Your task to perform on an android device: Search for "razer blackwidow" on walmart.com, select the first entry, and add it to the cart. Image 0: 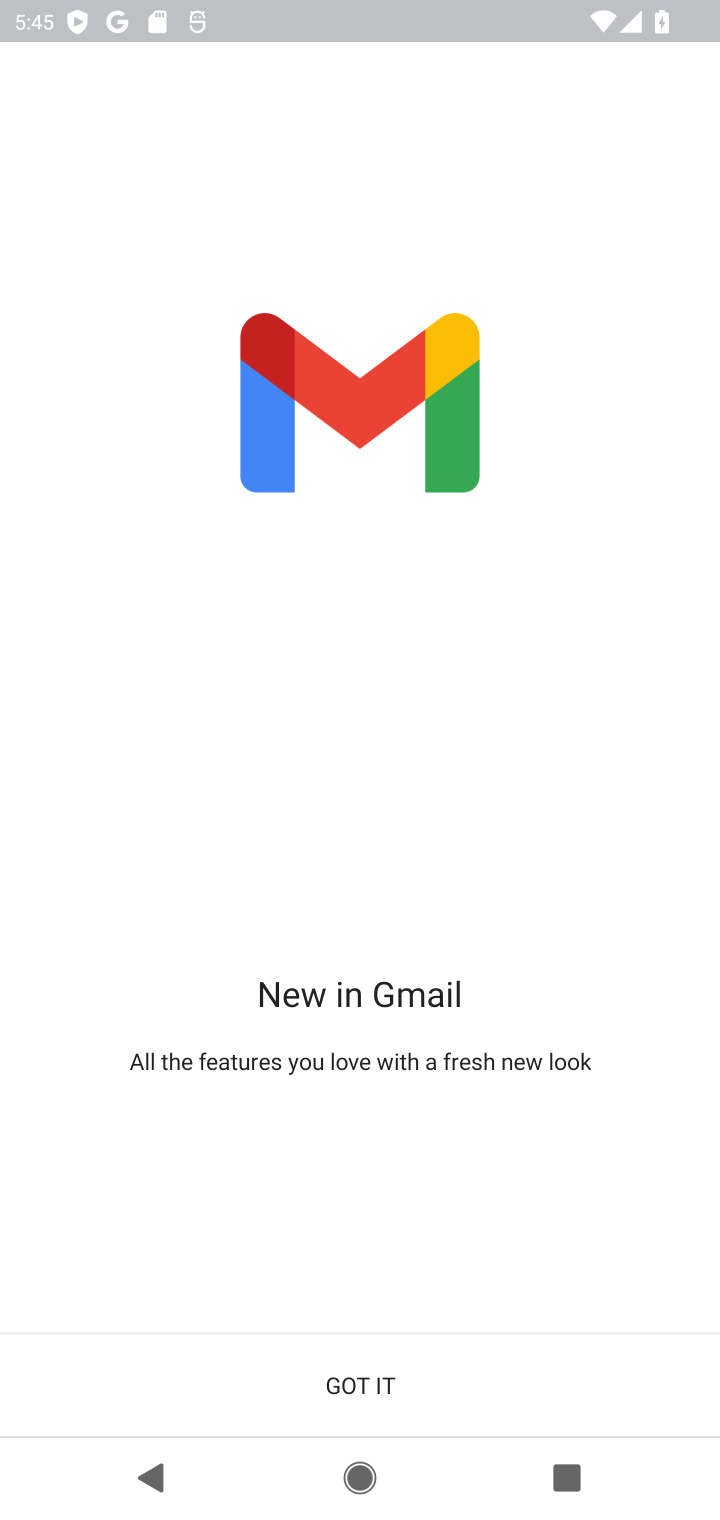
Step 0: click (160, 1387)
Your task to perform on an android device: Search for "razer blackwidow" on walmart.com, select the first entry, and add it to the cart. Image 1: 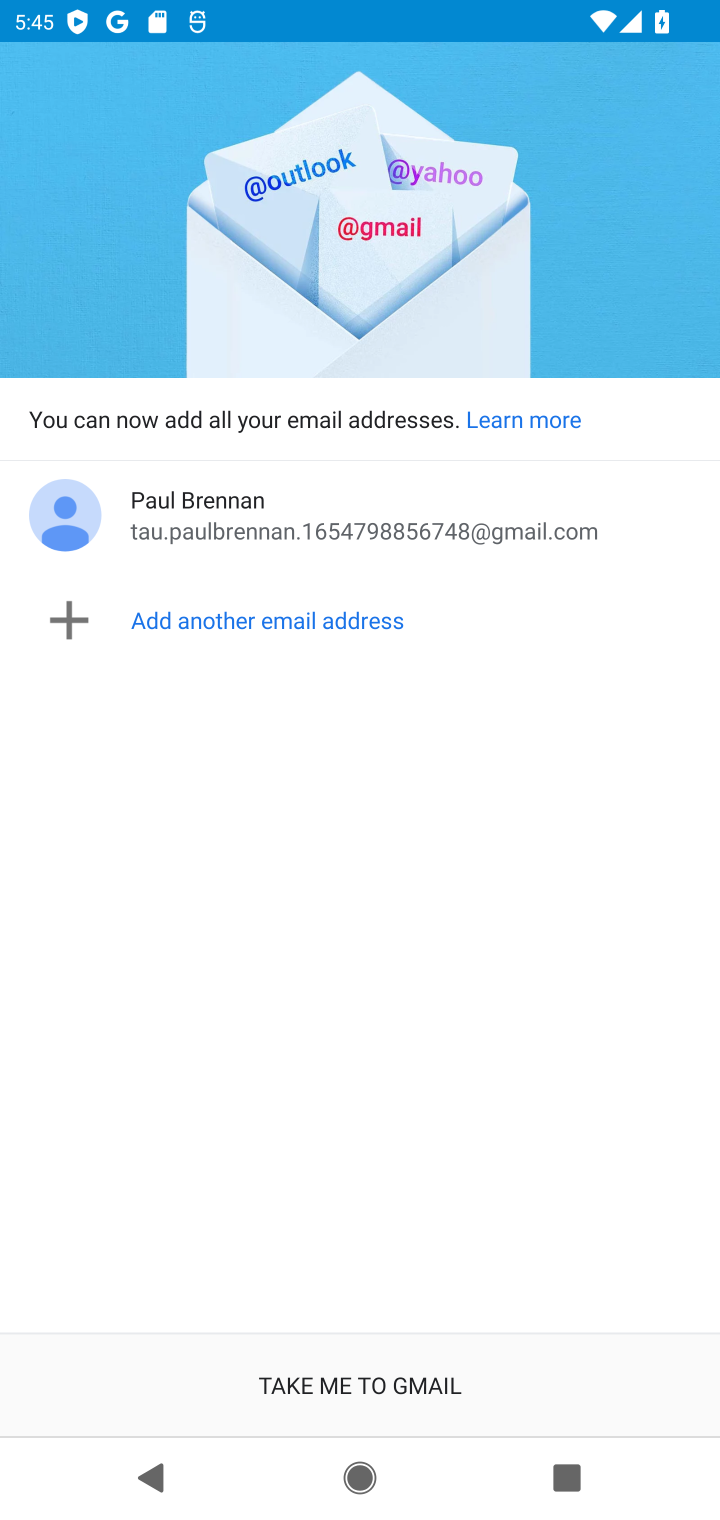
Step 1: press home button
Your task to perform on an android device: Search for "razer blackwidow" on walmart.com, select the first entry, and add it to the cart. Image 2: 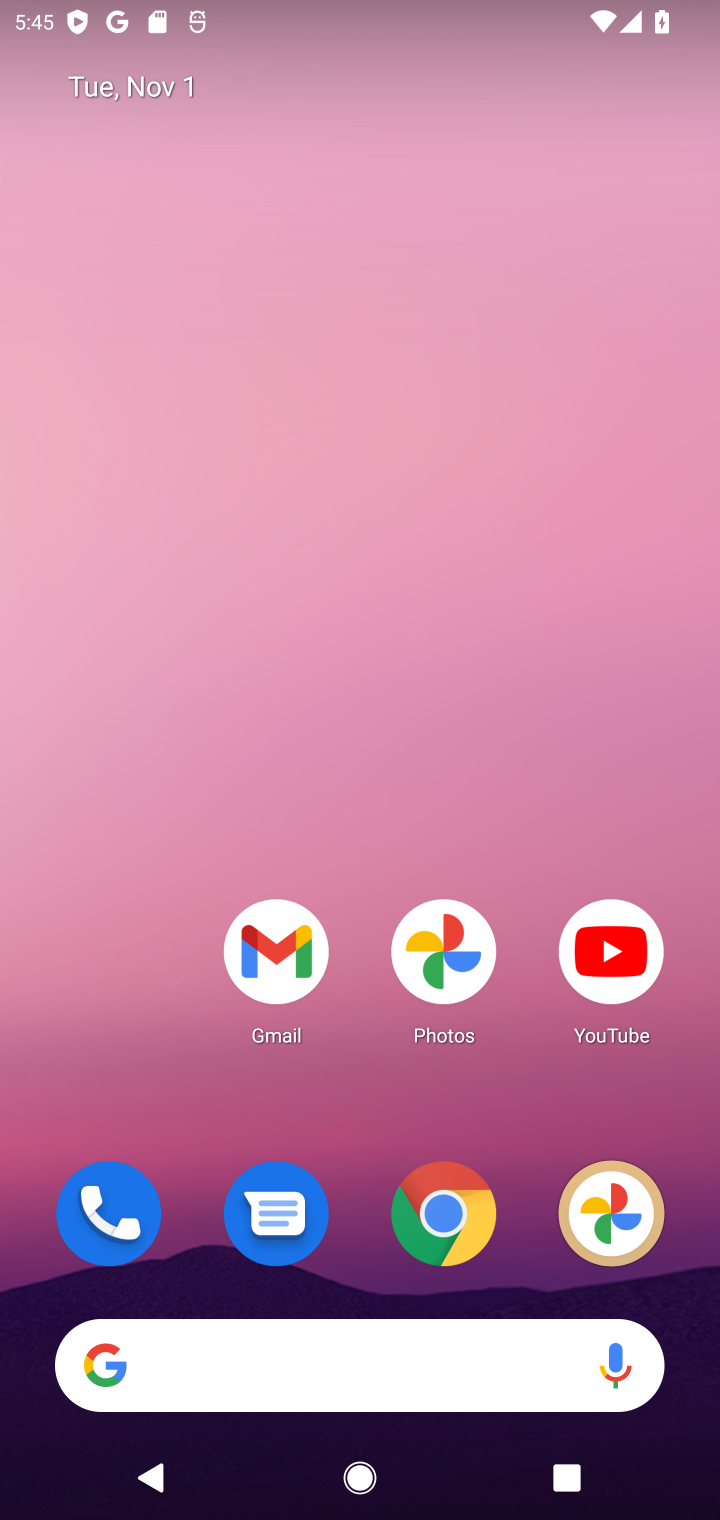
Step 2: click (445, 1231)
Your task to perform on an android device: Search for "razer blackwidow" on walmart.com, select the first entry, and add it to the cart. Image 3: 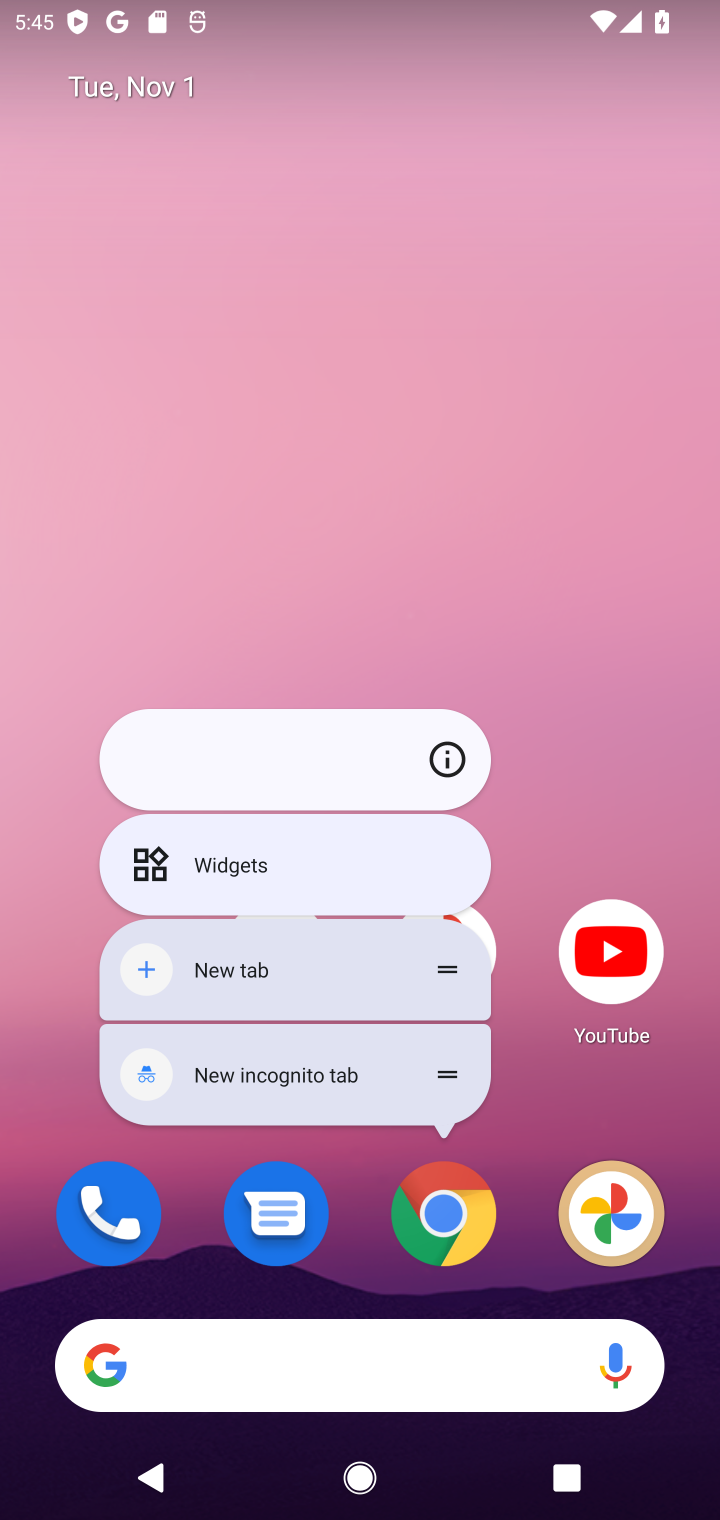
Step 3: click (450, 1213)
Your task to perform on an android device: Search for "razer blackwidow" on walmart.com, select the first entry, and add it to the cart. Image 4: 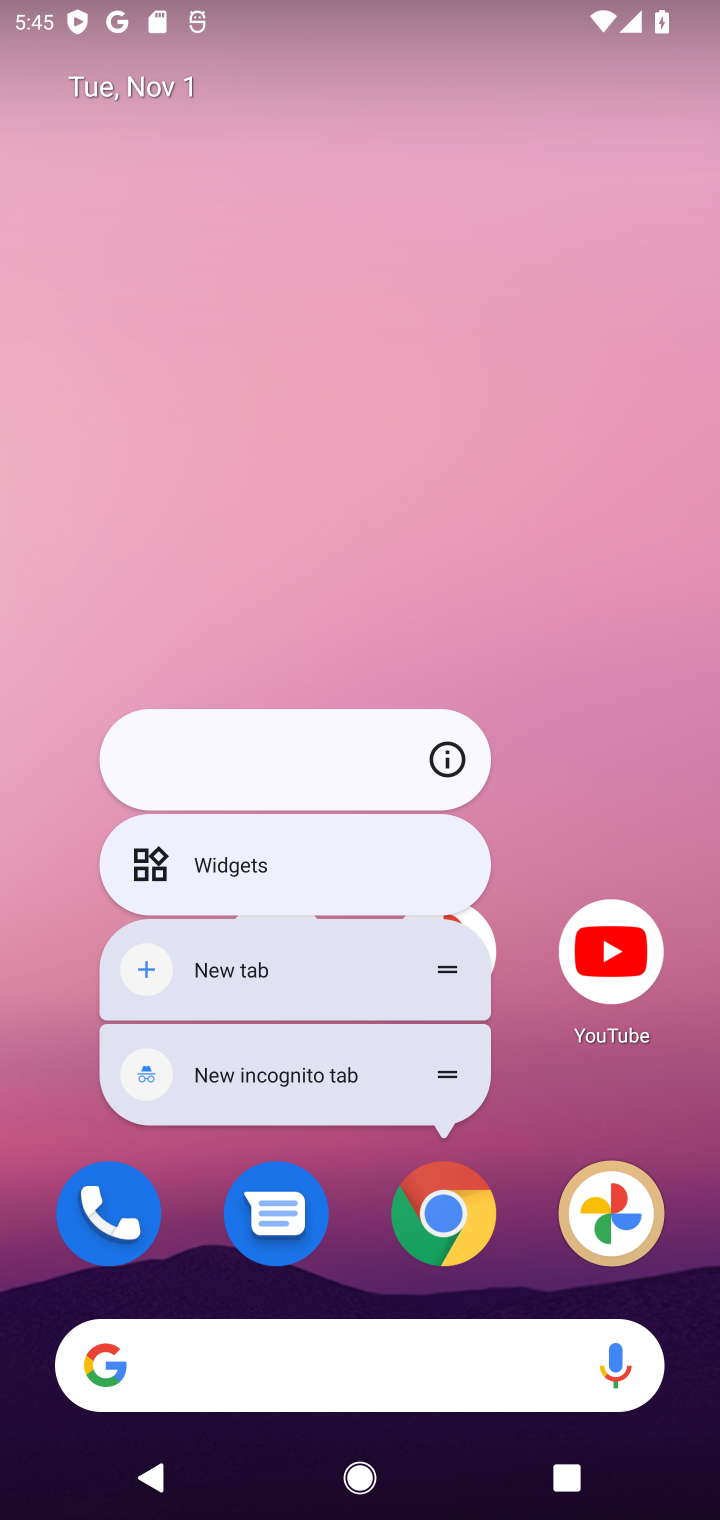
Step 4: click (450, 1240)
Your task to perform on an android device: Search for "razer blackwidow" on walmart.com, select the first entry, and add it to the cart. Image 5: 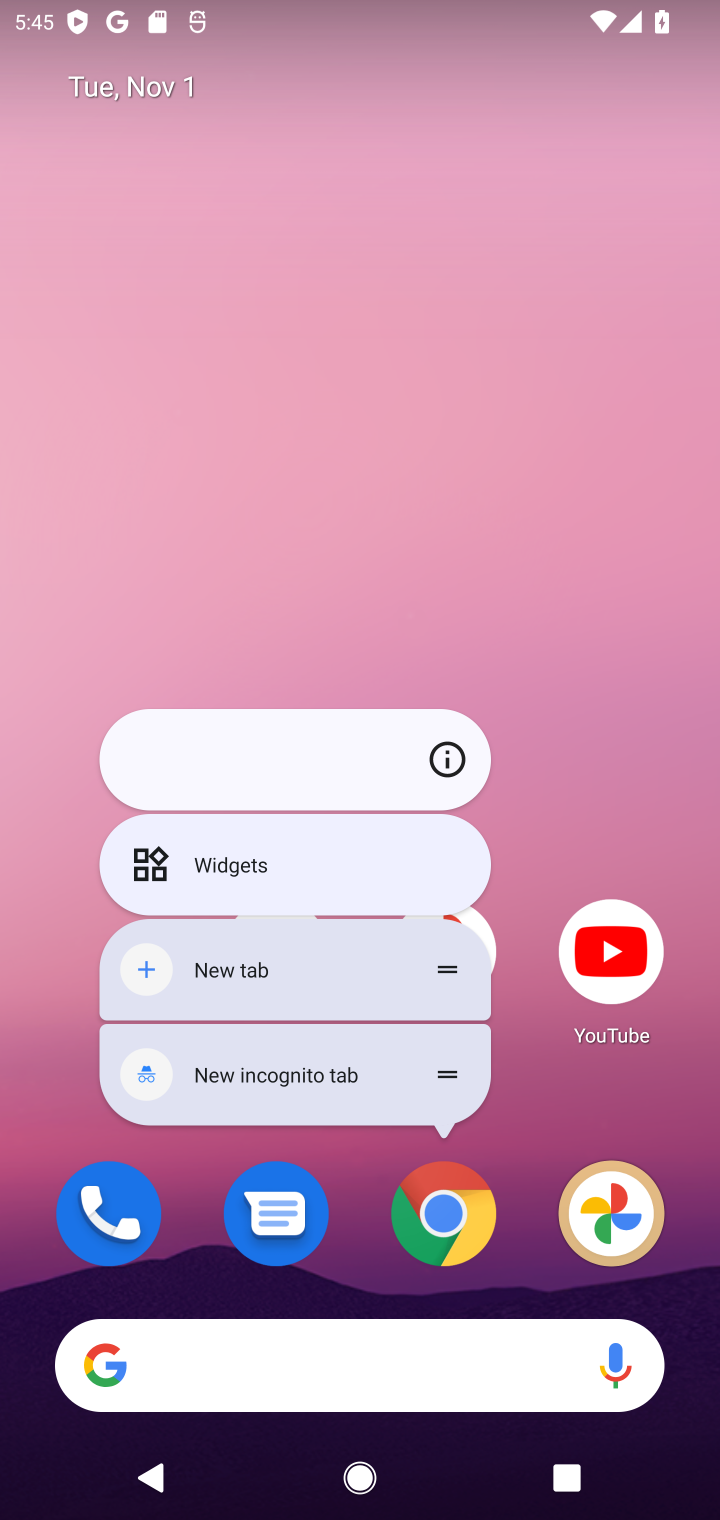
Step 5: click (450, 1226)
Your task to perform on an android device: Search for "razer blackwidow" on walmart.com, select the first entry, and add it to the cart. Image 6: 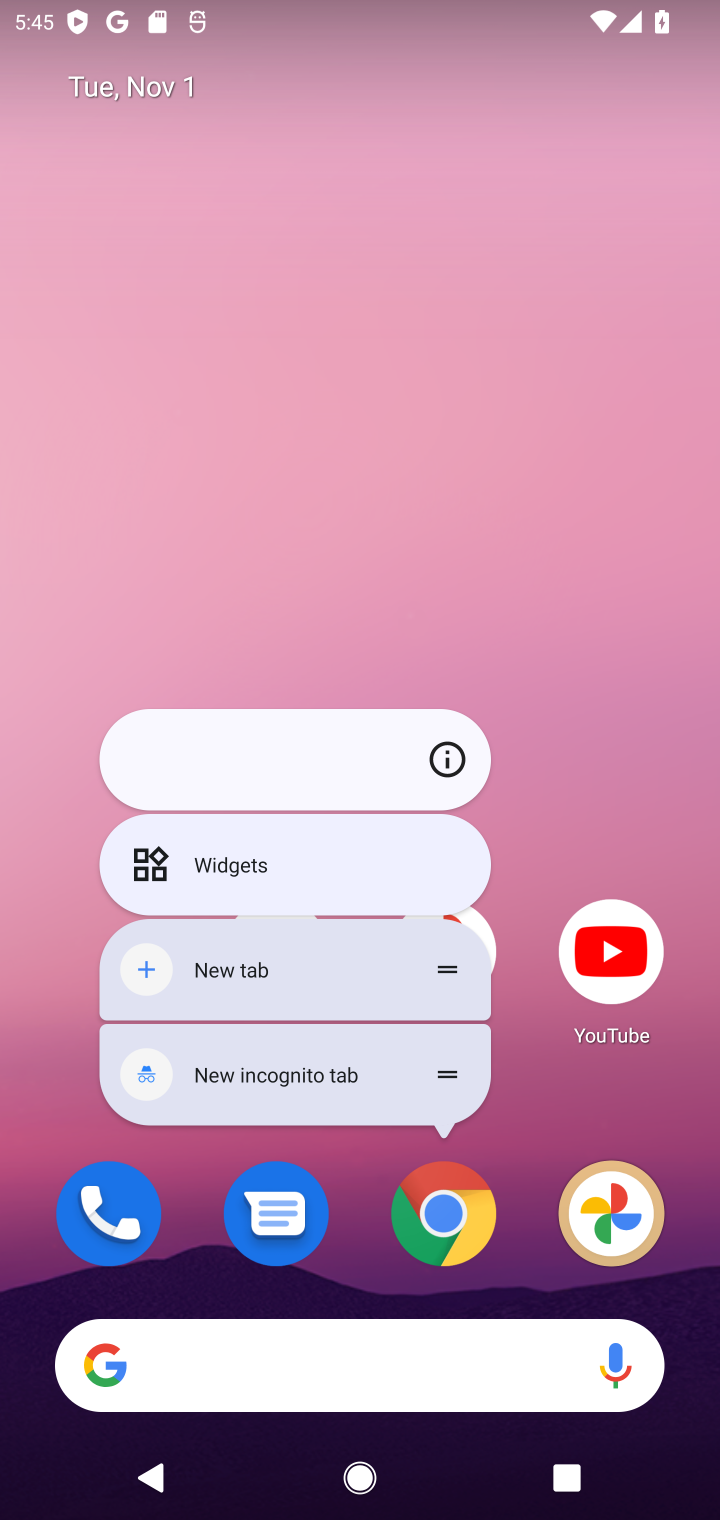
Step 6: click (442, 1232)
Your task to perform on an android device: Search for "razer blackwidow" on walmart.com, select the first entry, and add it to the cart. Image 7: 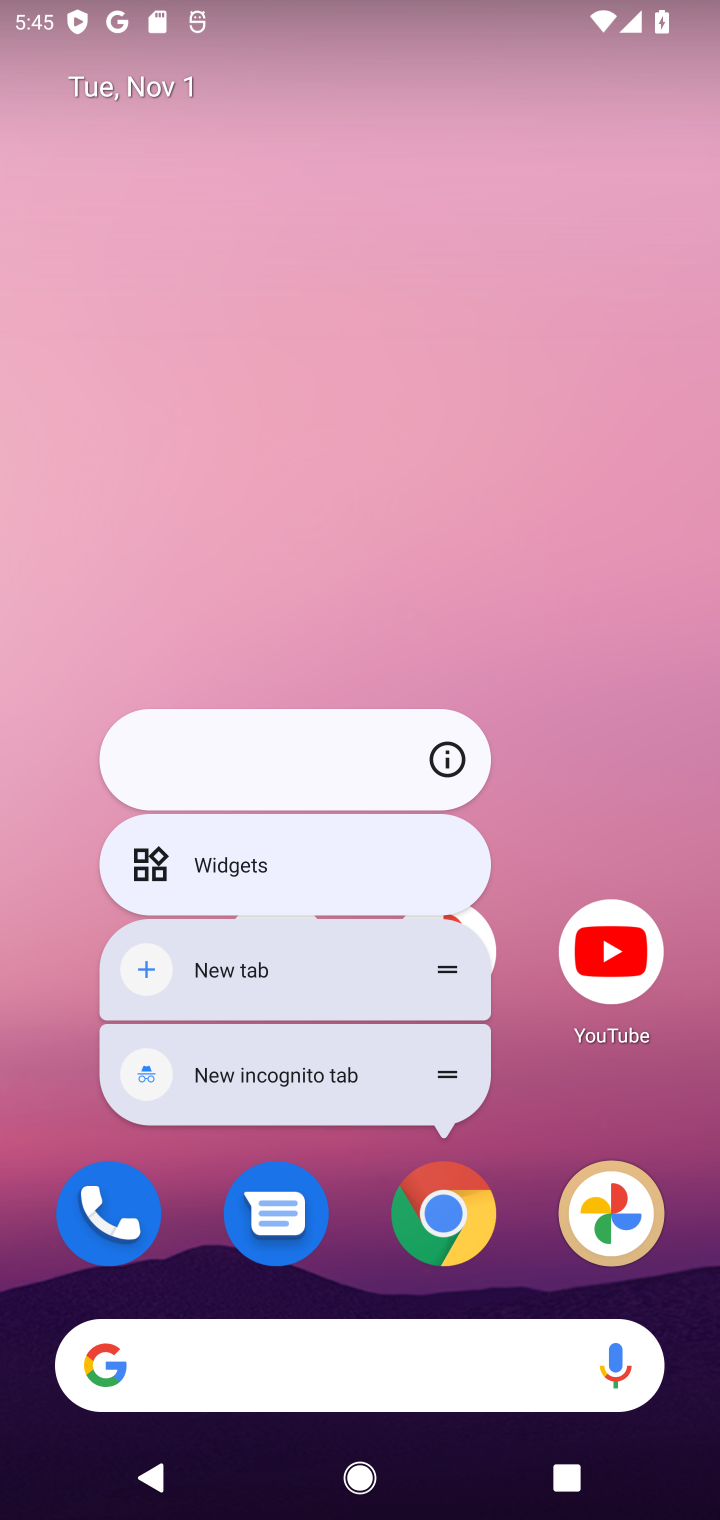
Step 7: click (440, 1248)
Your task to perform on an android device: Search for "razer blackwidow" on walmart.com, select the first entry, and add it to the cart. Image 8: 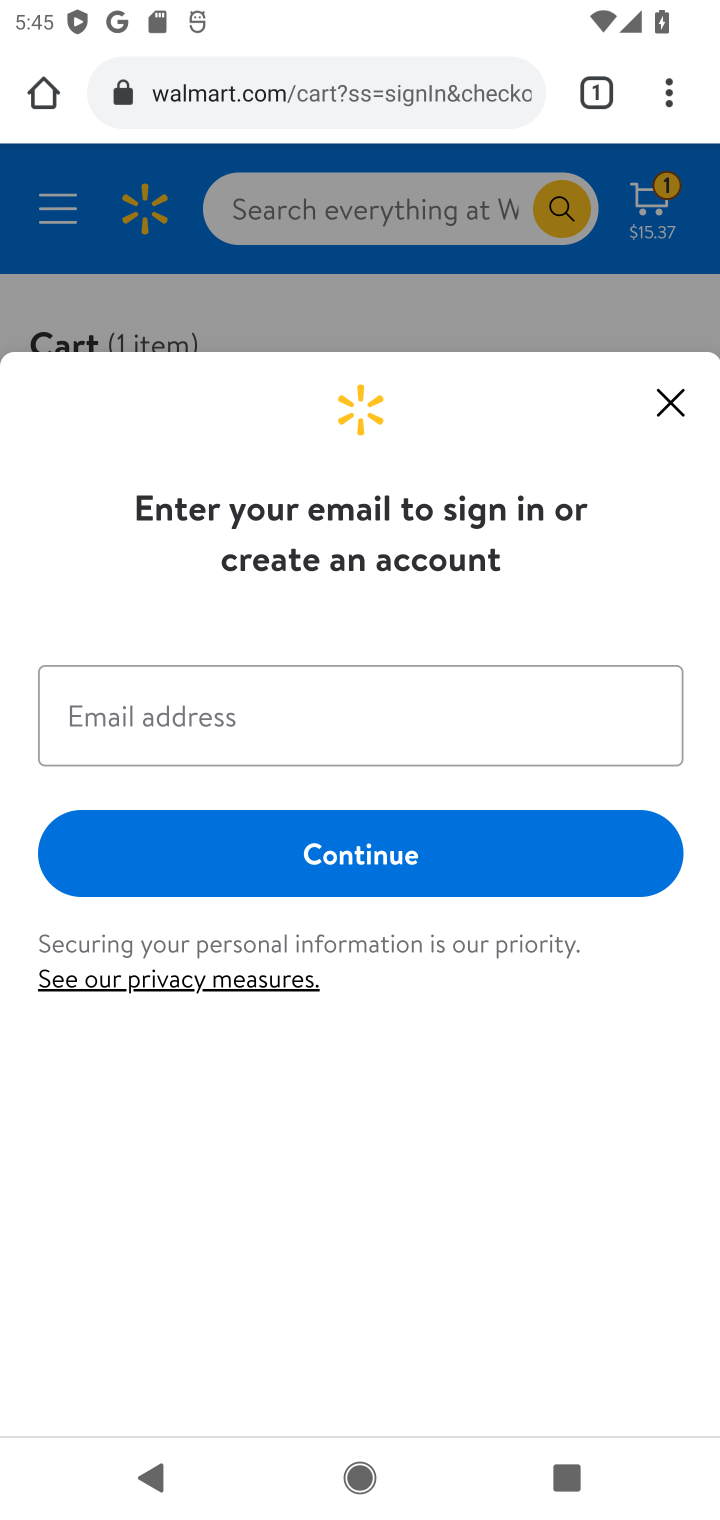
Step 8: click (350, 101)
Your task to perform on an android device: Search for "razer blackwidow" on walmart.com, select the first entry, and add it to the cart. Image 9: 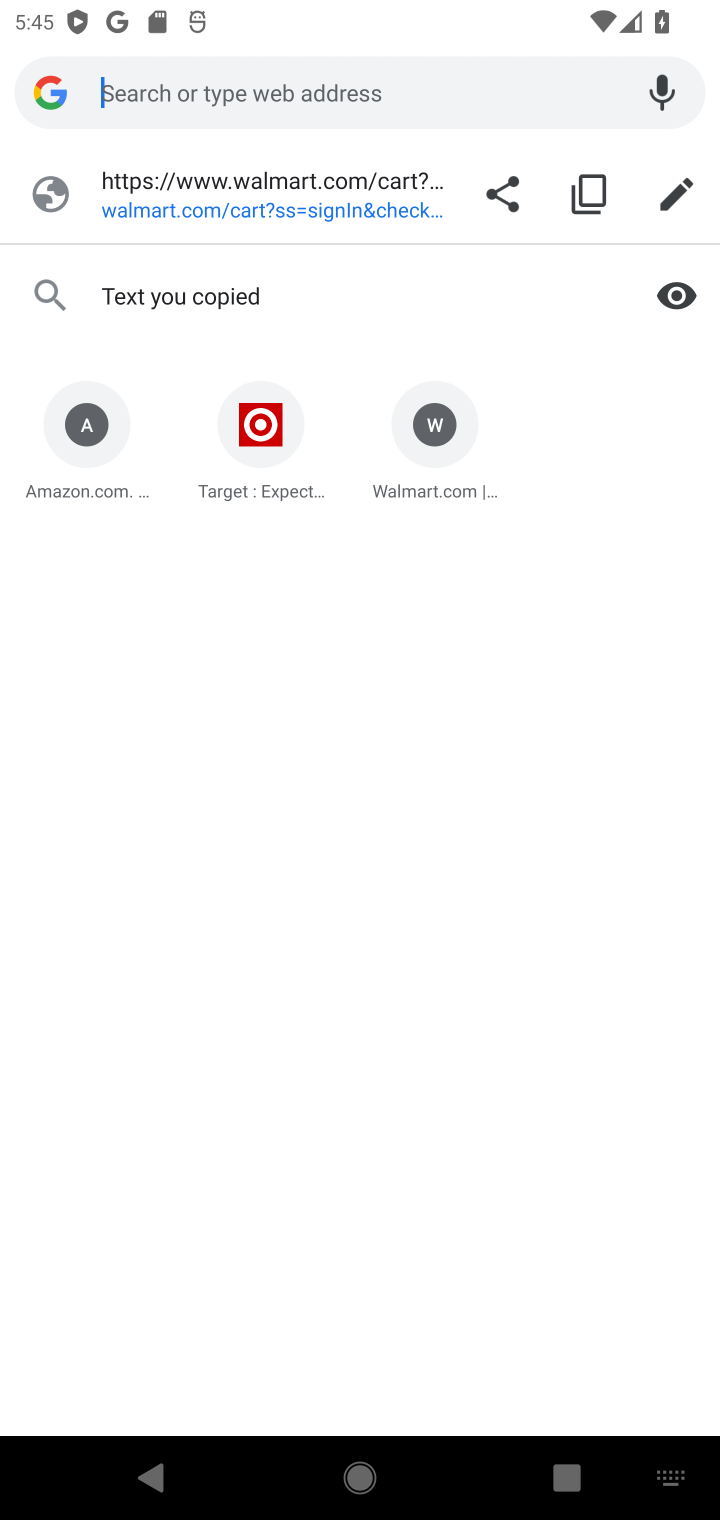
Step 9: type "walmart.com"
Your task to perform on an android device: Search for "razer blackwidow" on walmart.com, select the first entry, and add it to the cart. Image 10: 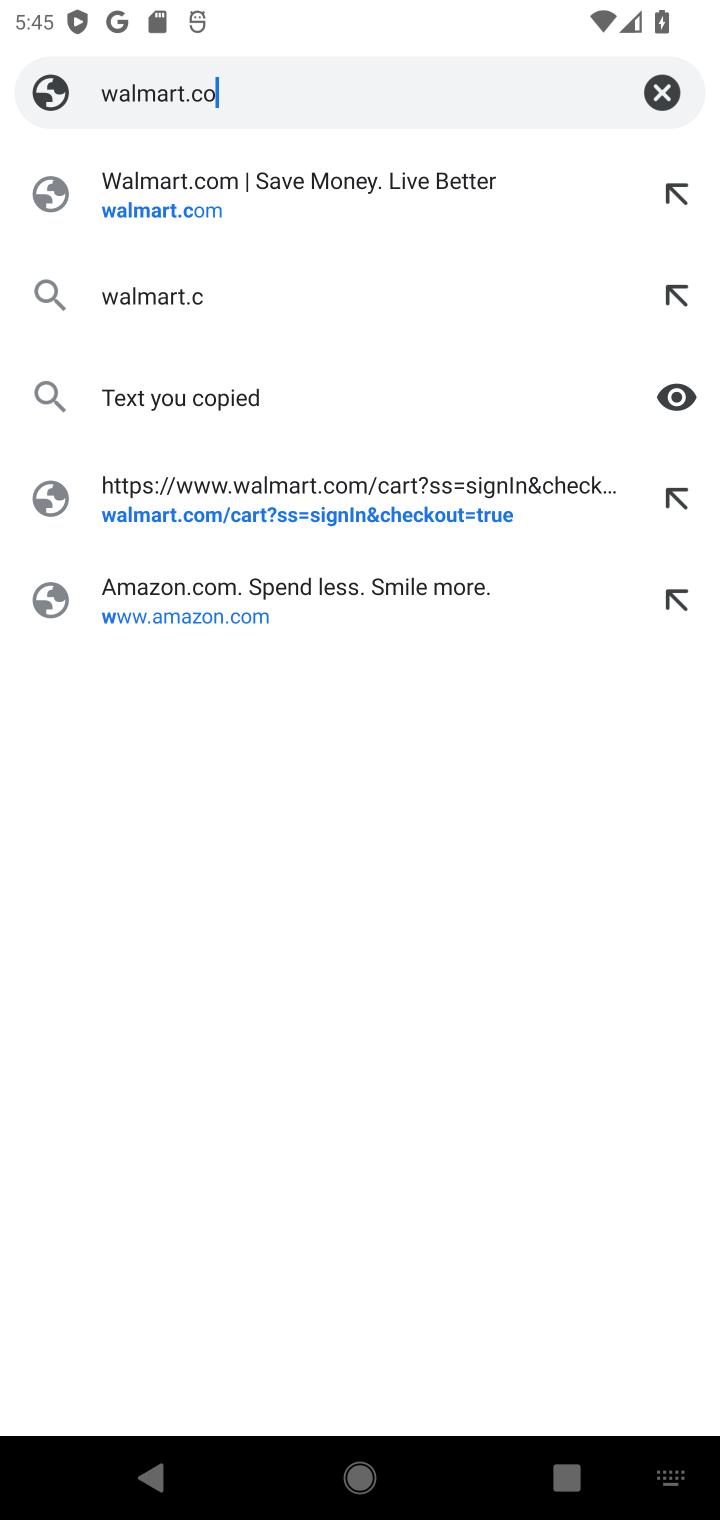
Step 10: type ""
Your task to perform on an android device: Search for "razer blackwidow" on walmart.com, select the first entry, and add it to the cart. Image 11: 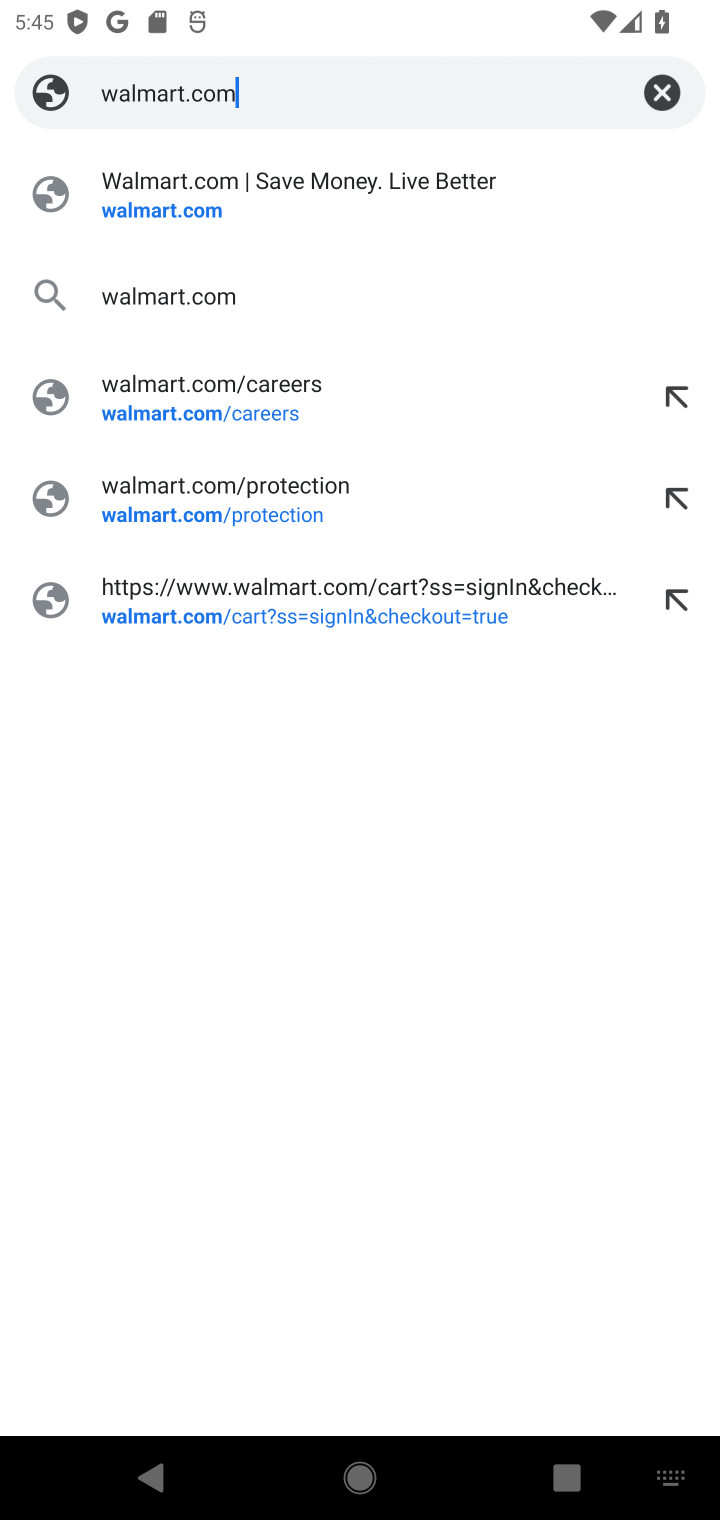
Step 11: click (349, 179)
Your task to perform on an android device: Search for "razer blackwidow" on walmart.com, select the first entry, and add it to the cart. Image 12: 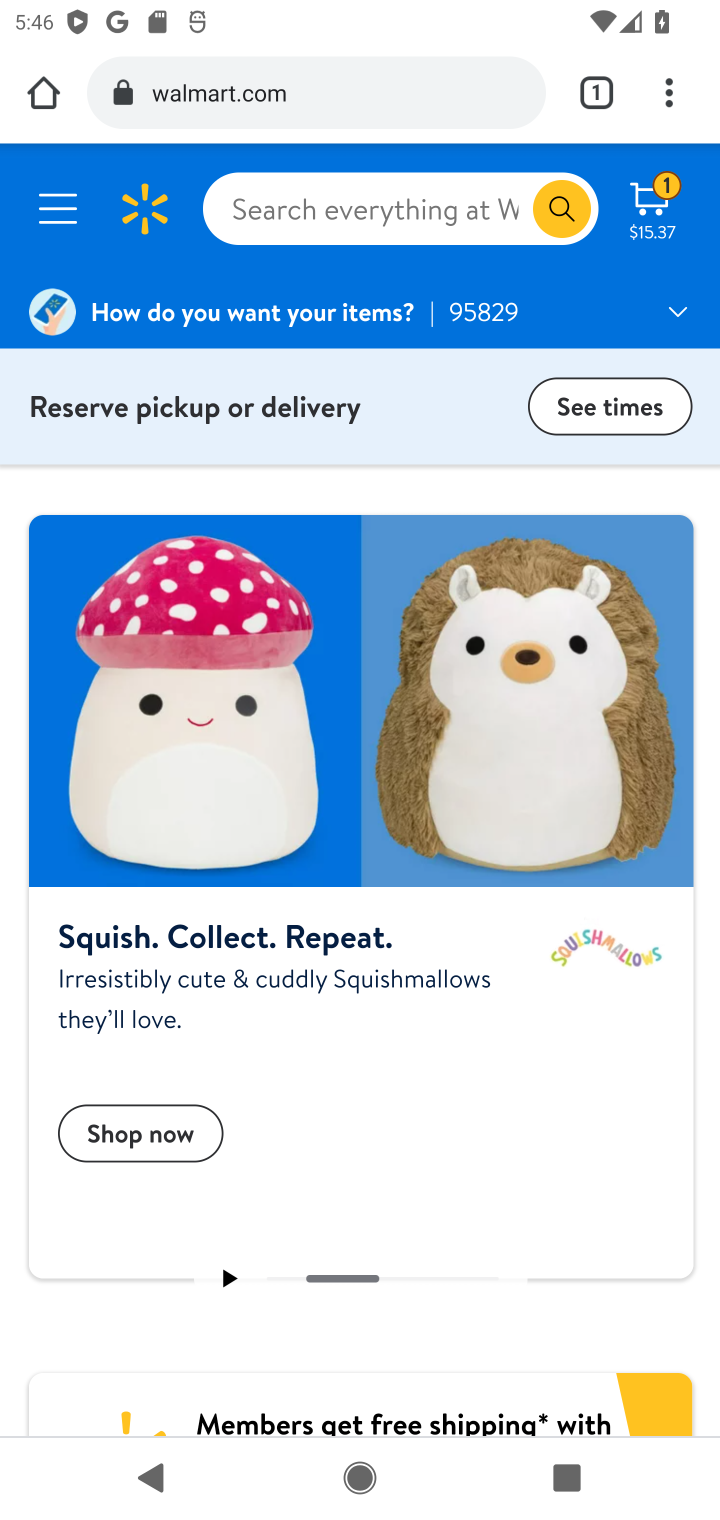
Step 12: click (328, 205)
Your task to perform on an android device: Search for "razer blackwidow" on walmart.com, select the first entry, and add it to the cart. Image 13: 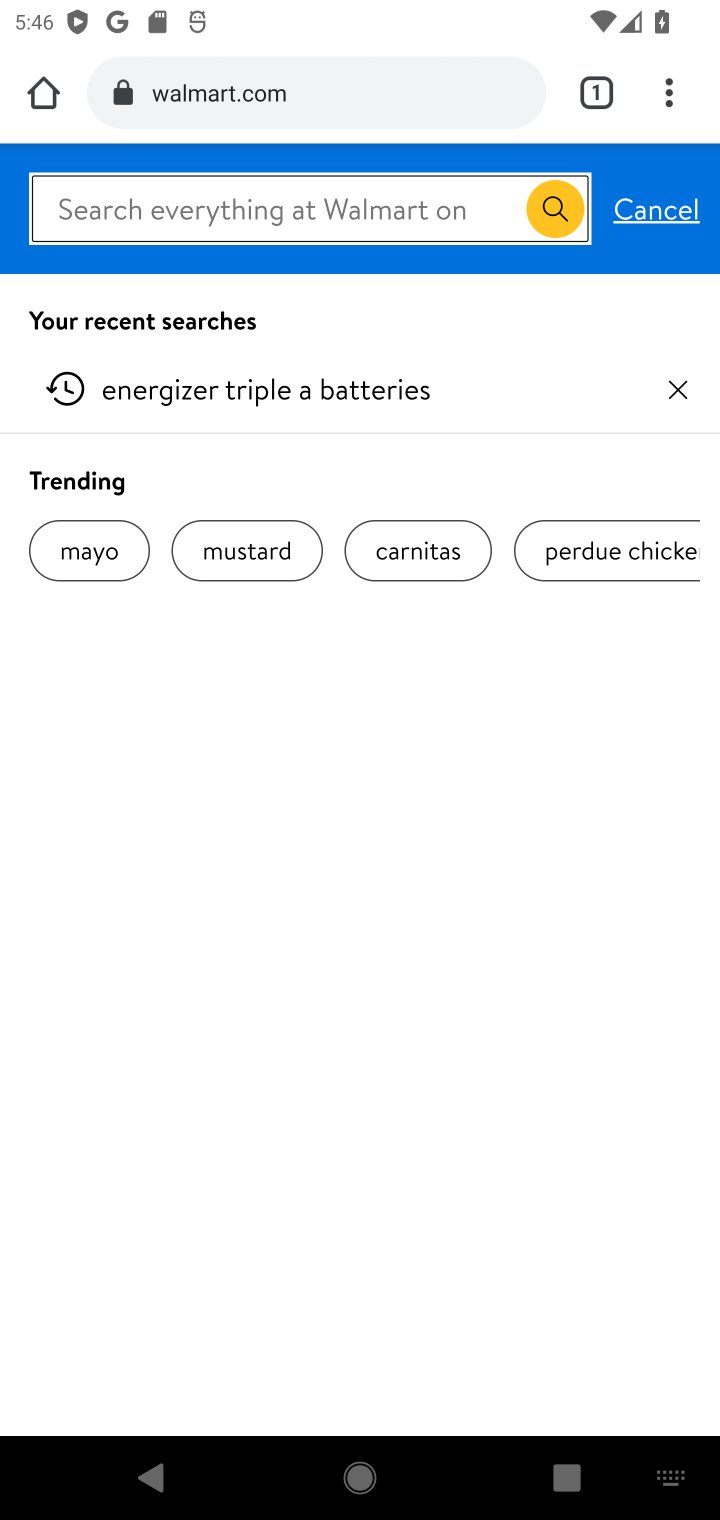
Step 13: type "razer blackwidow"
Your task to perform on an android device: Search for "razer blackwidow" on walmart.com, select the first entry, and add it to the cart. Image 14: 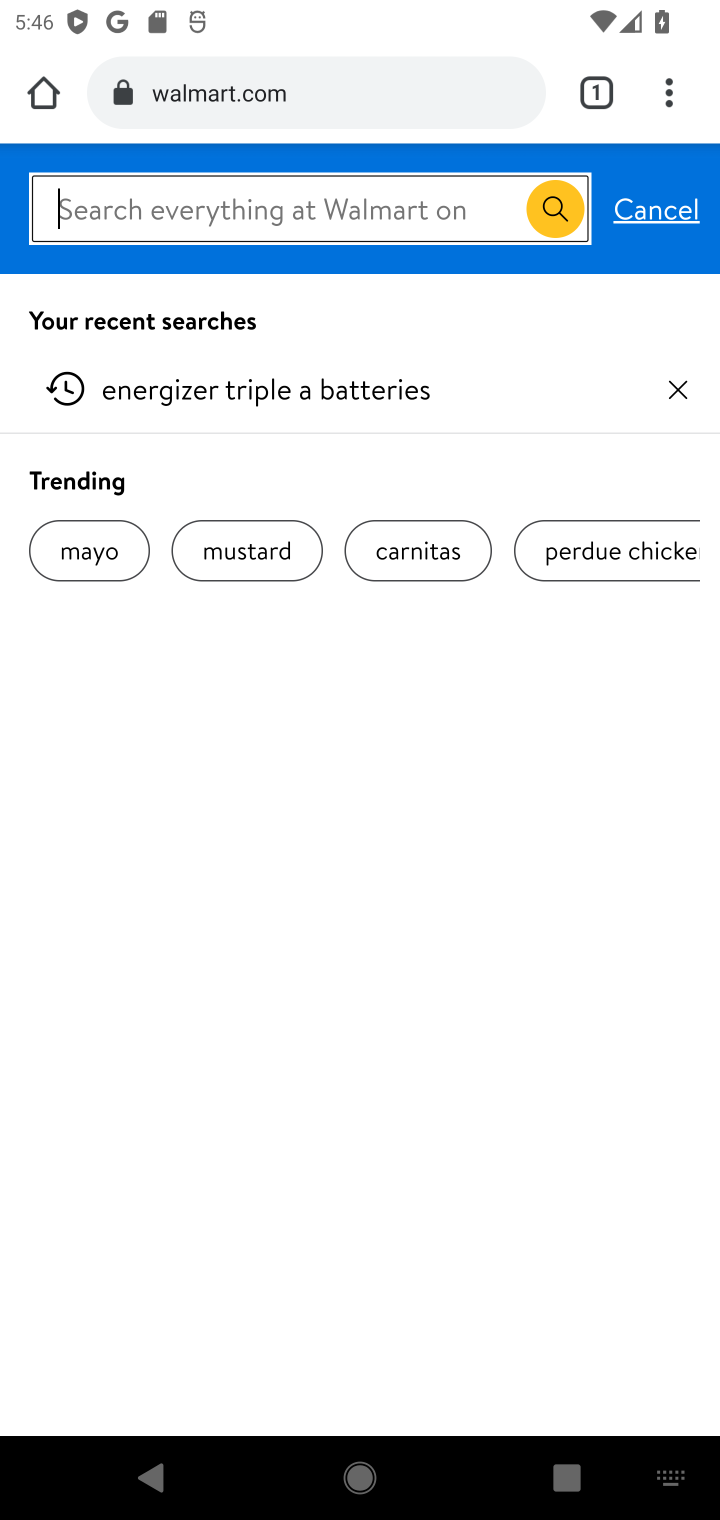
Step 14: type ""
Your task to perform on an android device: Search for "razer blackwidow" on walmart.com, select the first entry, and add it to the cart. Image 15: 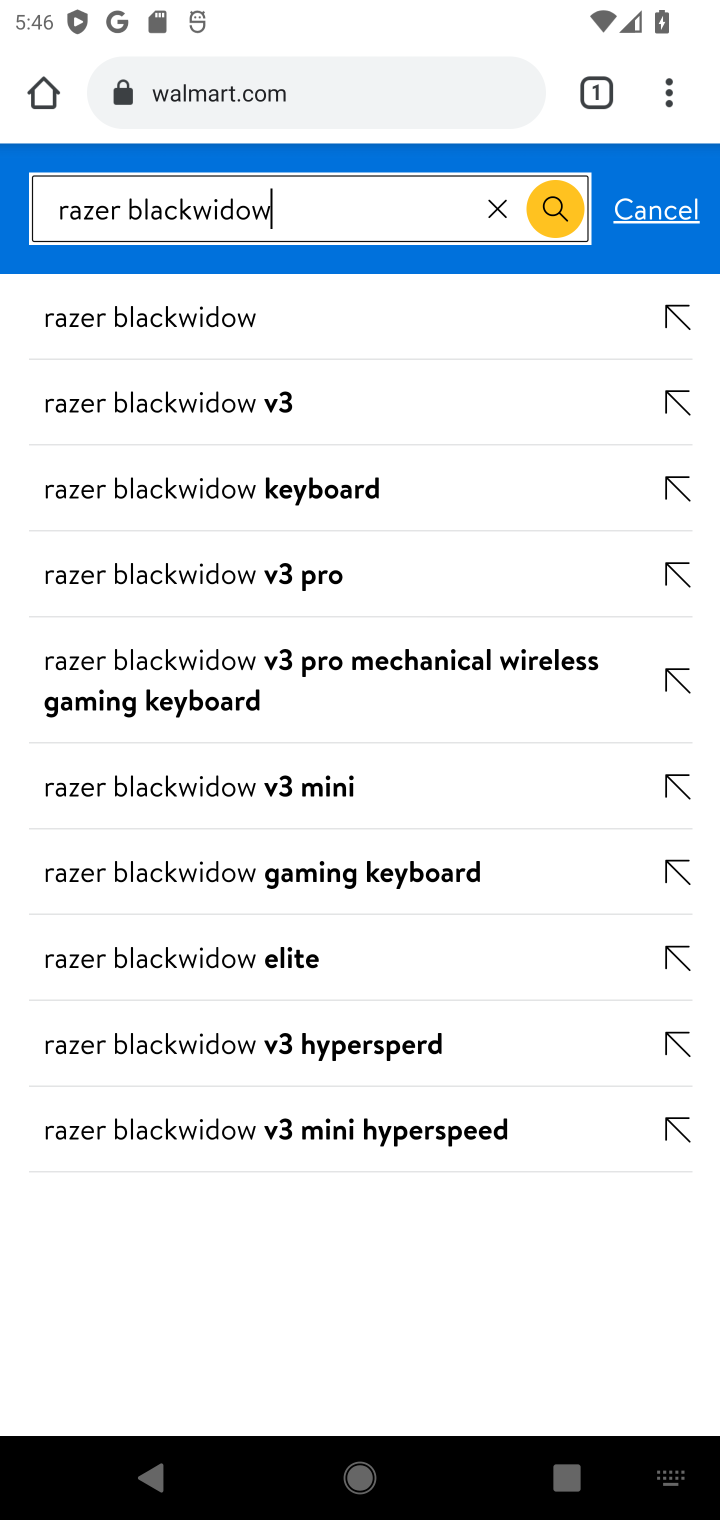
Step 15: click (261, 317)
Your task to perform on an android device: Search for "razer blackwidow" on walmart.com, select the first entry, and add it to the cart. Image 16: 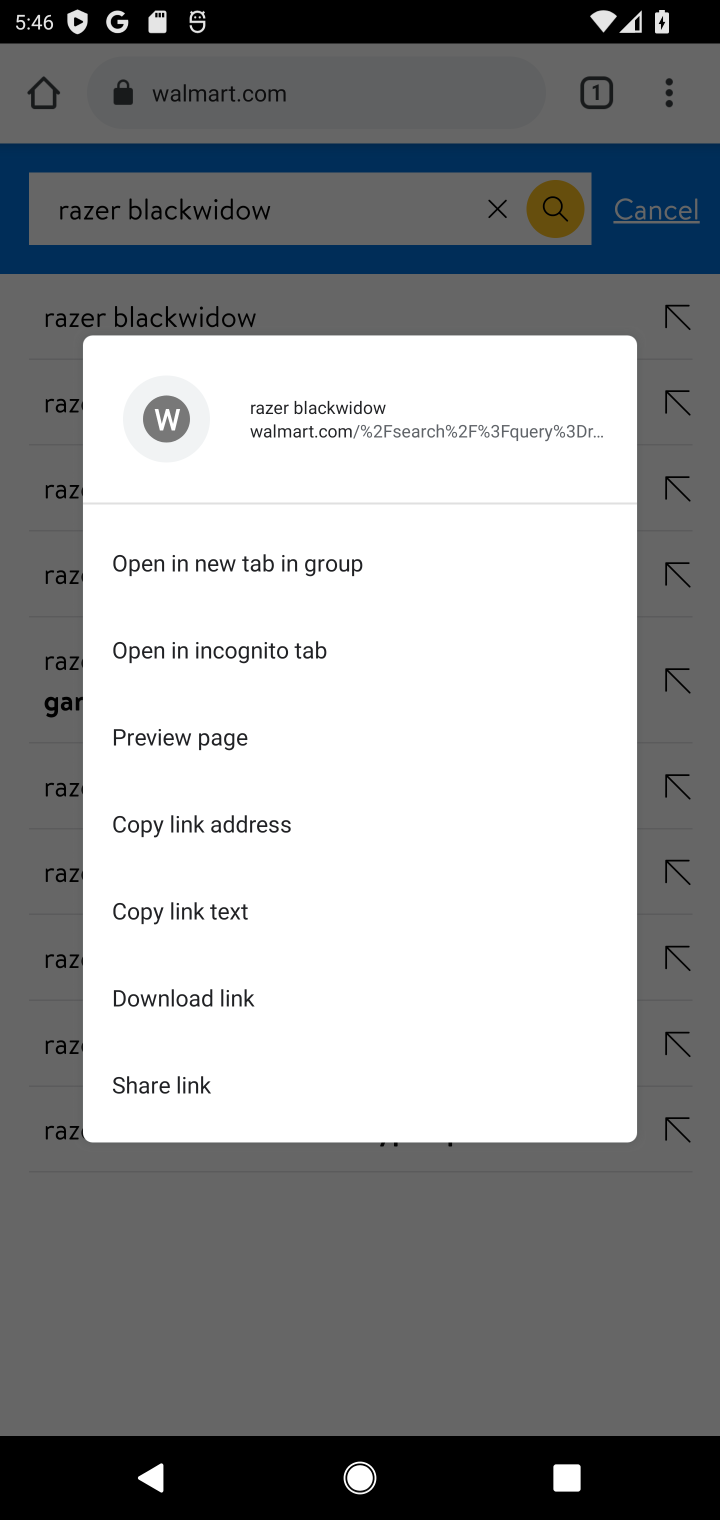
Step 16: click (298, 288)
Your task to perform on an android device: Search for "razer blackwidow" on walmart.com, select the first entry, and add it to the cart. Image 17: 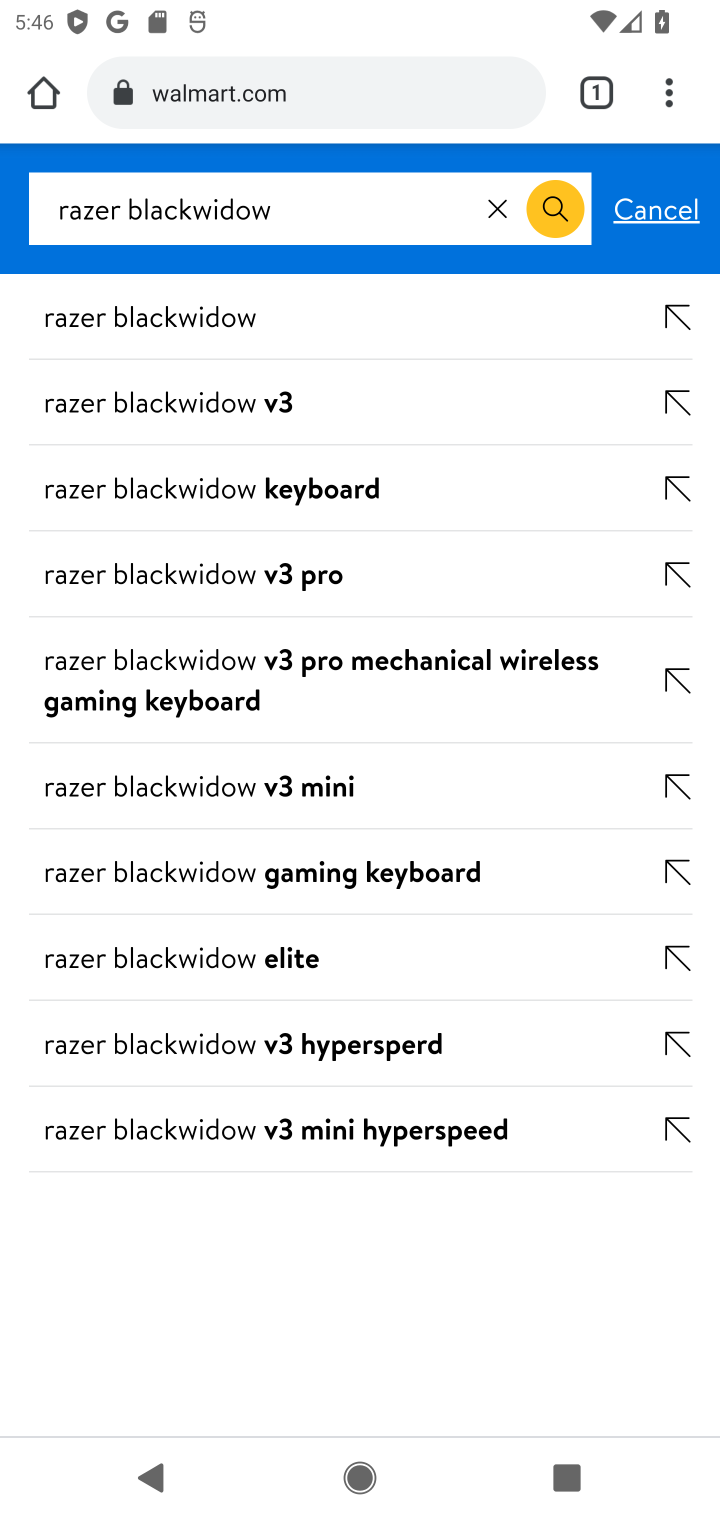
Step 17: click (235, 307)
Your task to perform on an android device: Search for "razer blackwidow" on walmart.com, select the first entry, and add it to the cart. Image 18: 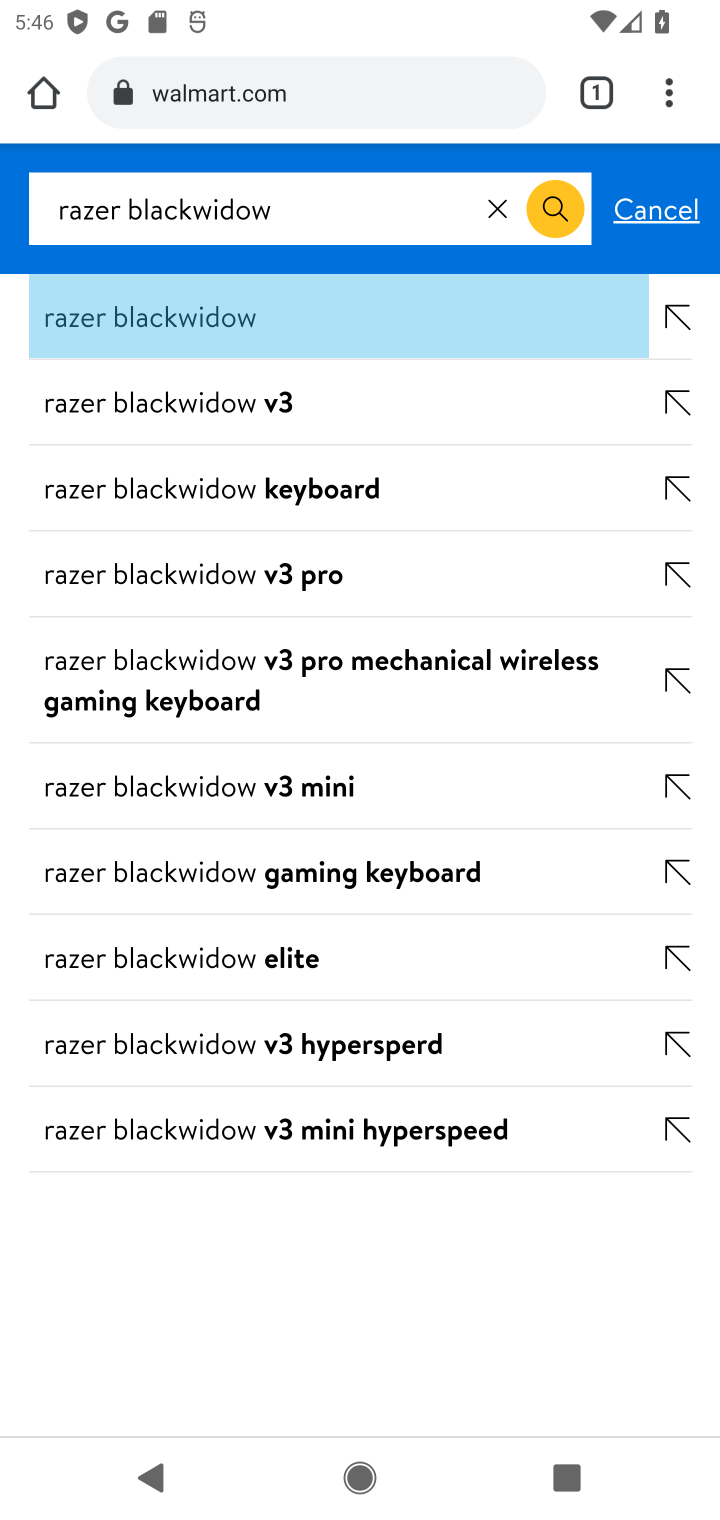
Step 18: click (235, 307)
Your task to perform on an android device: Search for "razer blackwidow" on walmart.com, select the first entry, and add it to the cart. Image 19: 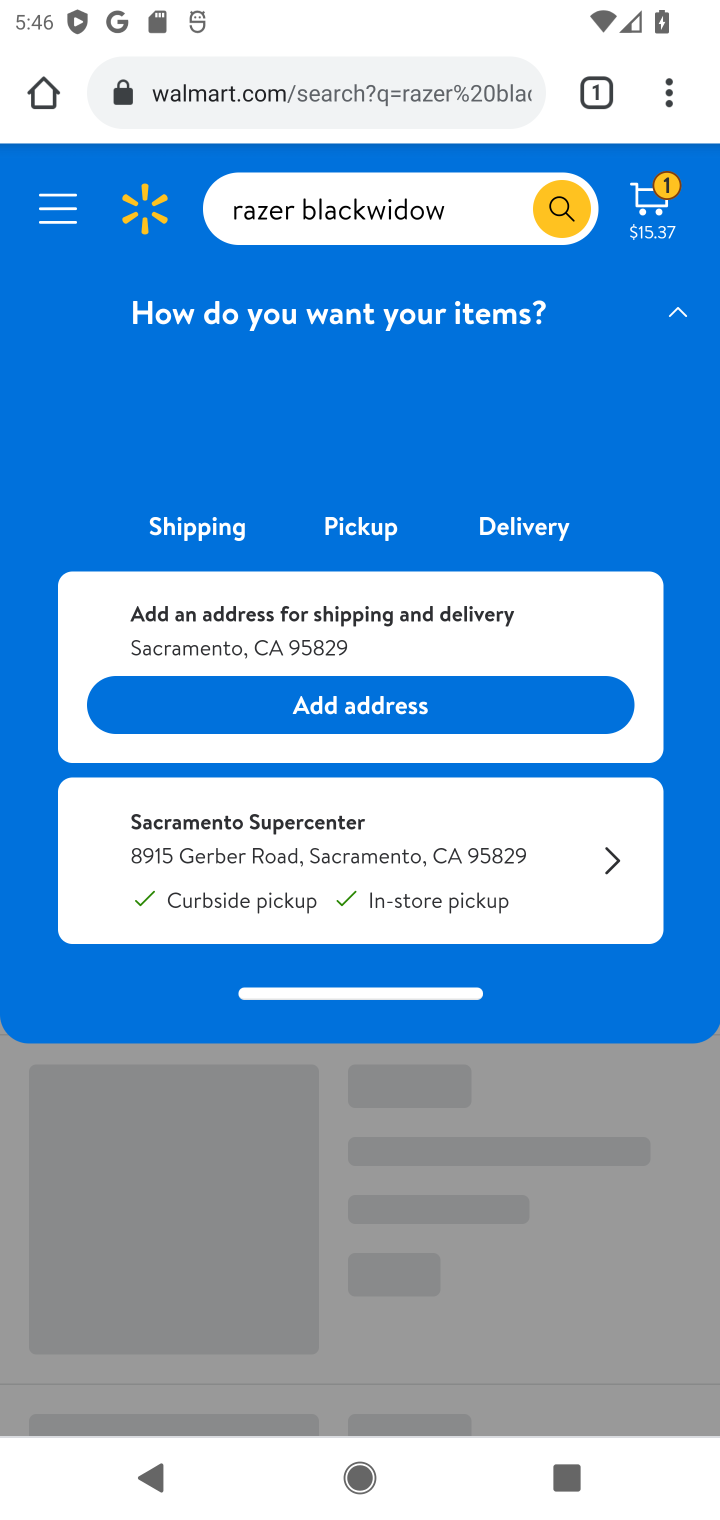
Step 19: click (685, 303)
Your task to perform on an android device: Search for "razer blackwidow" on walmart.com, select the first entry, and add it to the cart. Image 20: 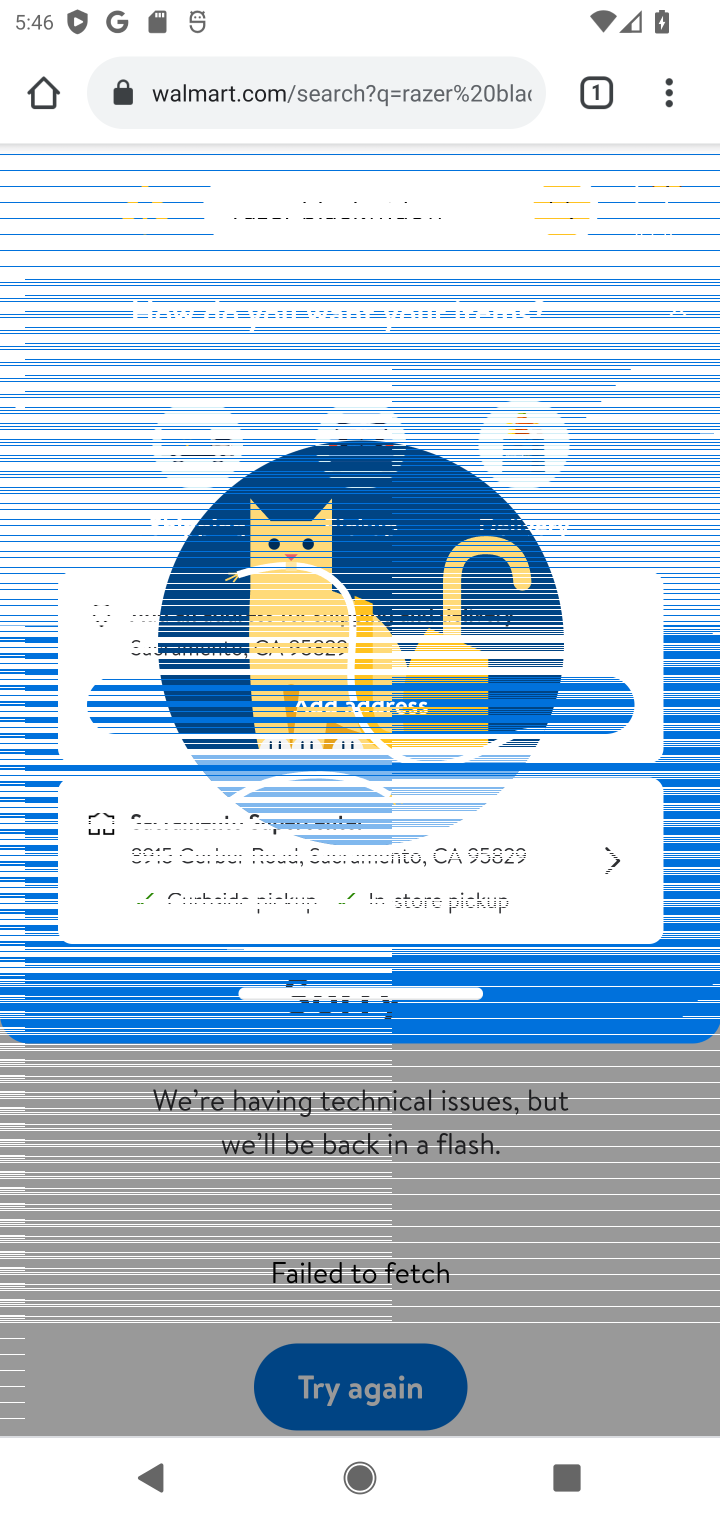
Step 20: click (649, 221)
Your task to perform on an android device: Search for "razer blackwidow" on walmart.com, select the first entry, and add it to the cart. Image 21: 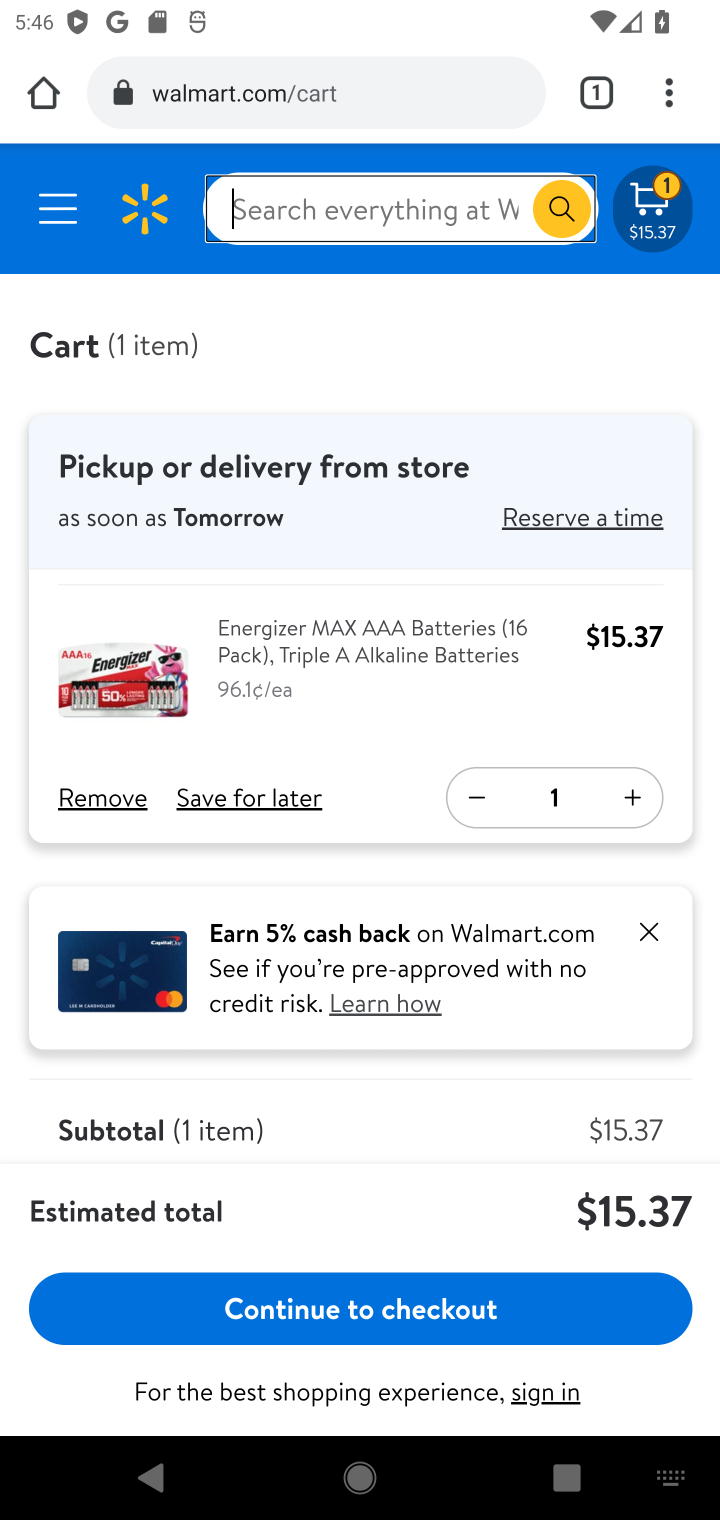
Step 21: click (493, 788)
Your task to perform on an android device: Search for "razer blackwidow" on walmart.com, select the first entry, and add it to the cart. Image 22: 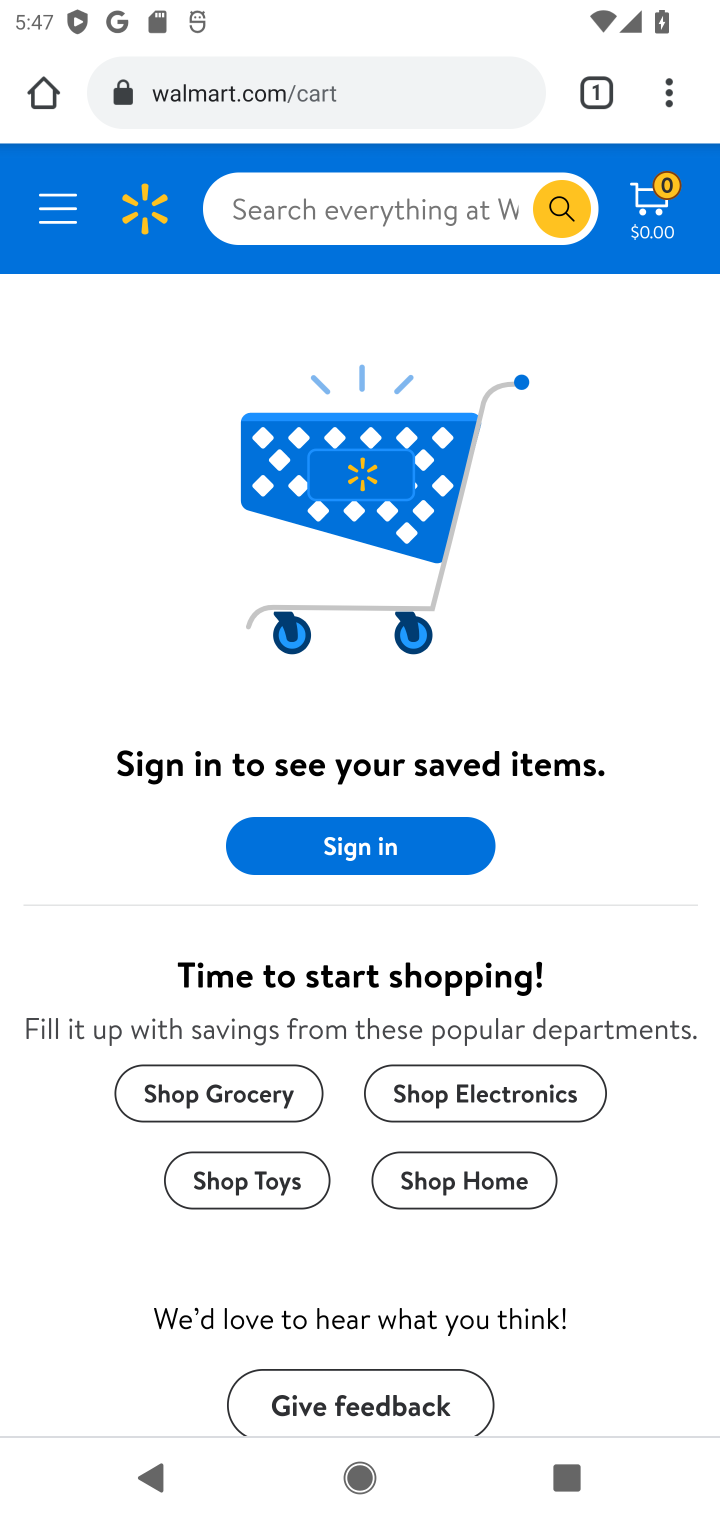
Step 22: click (330, 214)
Your task to perform on an android device: Search for "razer blackwidow" on walmart.com, select the first entry, and add it to the cart. Image 23: 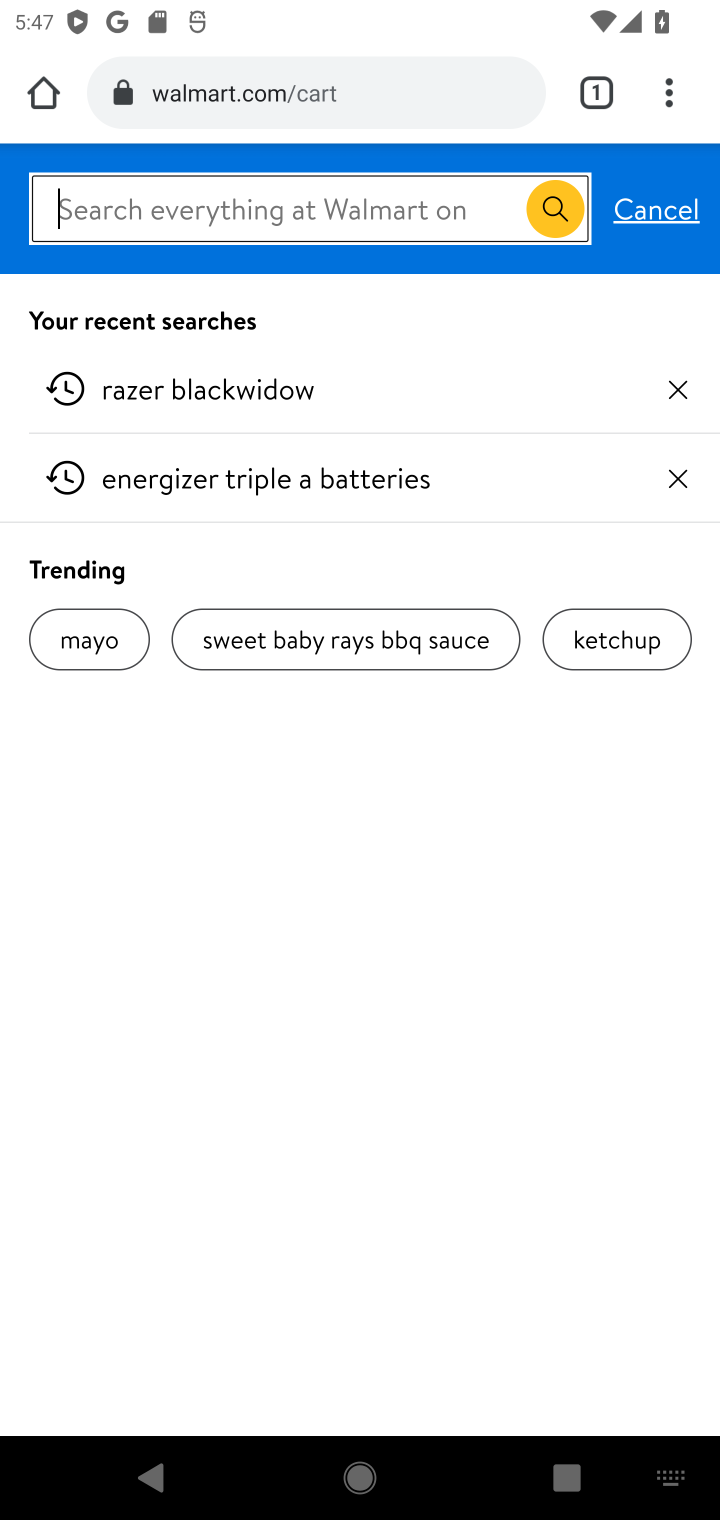
Step 23: type "razer blackwidow"
Your task to perform on an android device: Search for "razer blackwidow" on walmart.com, select the first entry, and add it to the cart. Image 24: 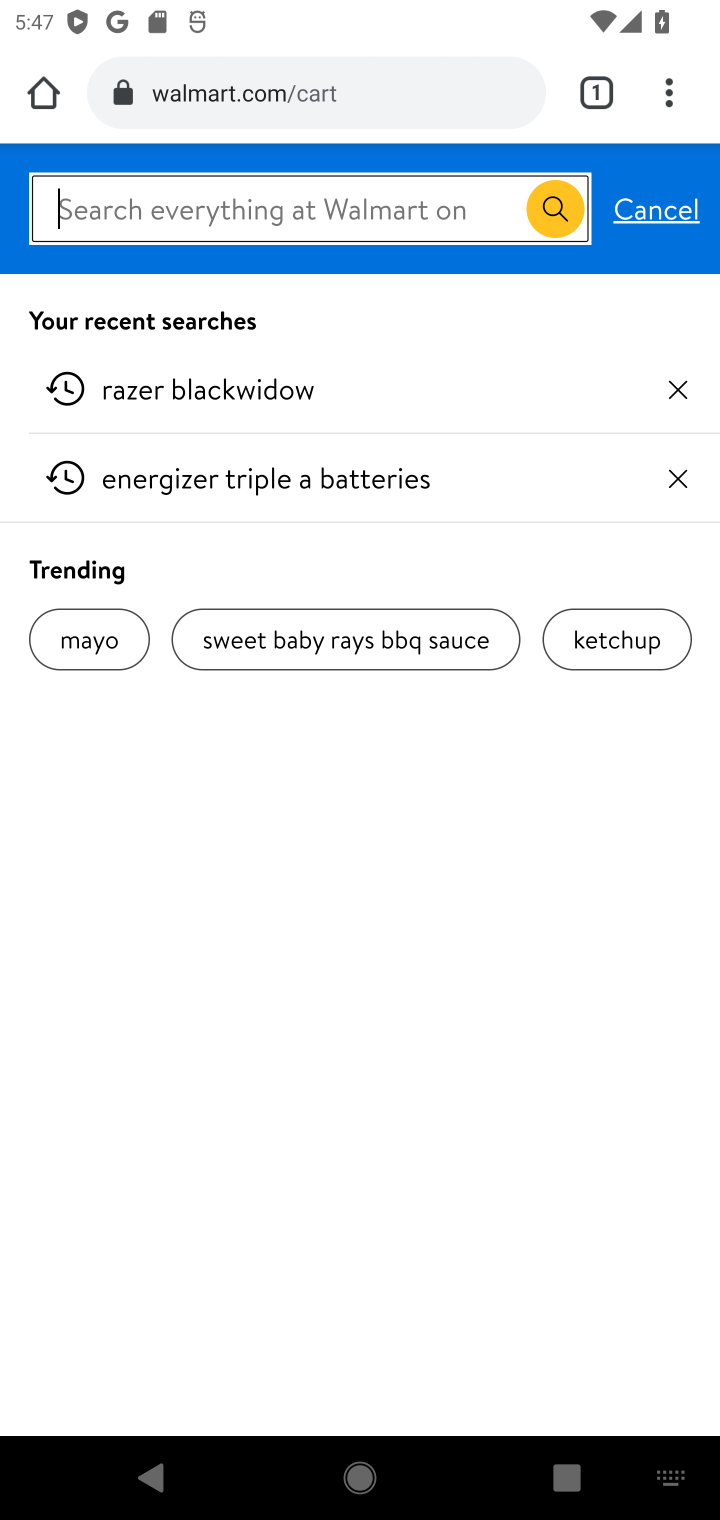
Step 24: click (141, 420)
Your task to perform on an android device: Search for "razer blackwidow" on walmart.com, select the first entry, and add it to the cart. Image 25: 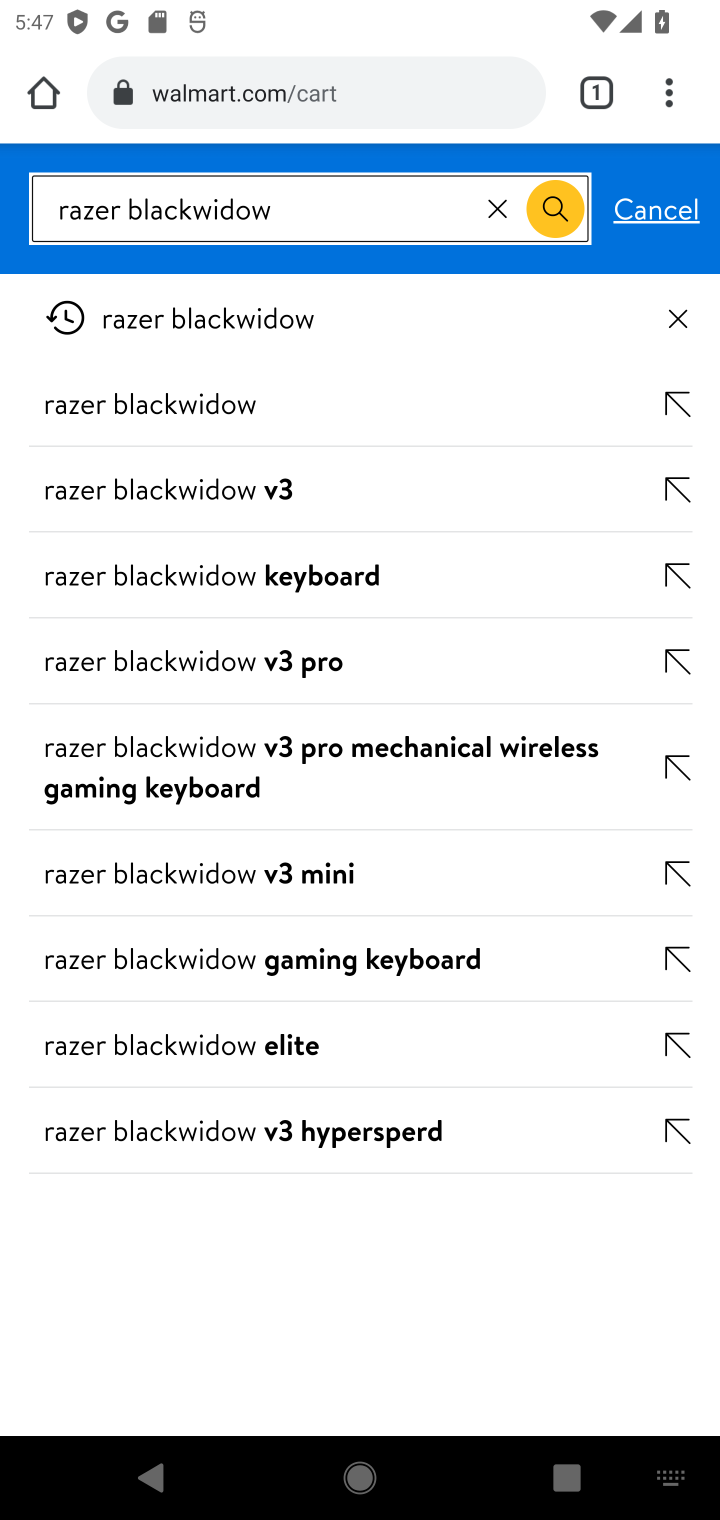
Step 25: click (154, 404)
Your task to perform on an android device: Search for "razer blackwidow" on walmart.com, select the first entry, and add it to the cart. Image 26: 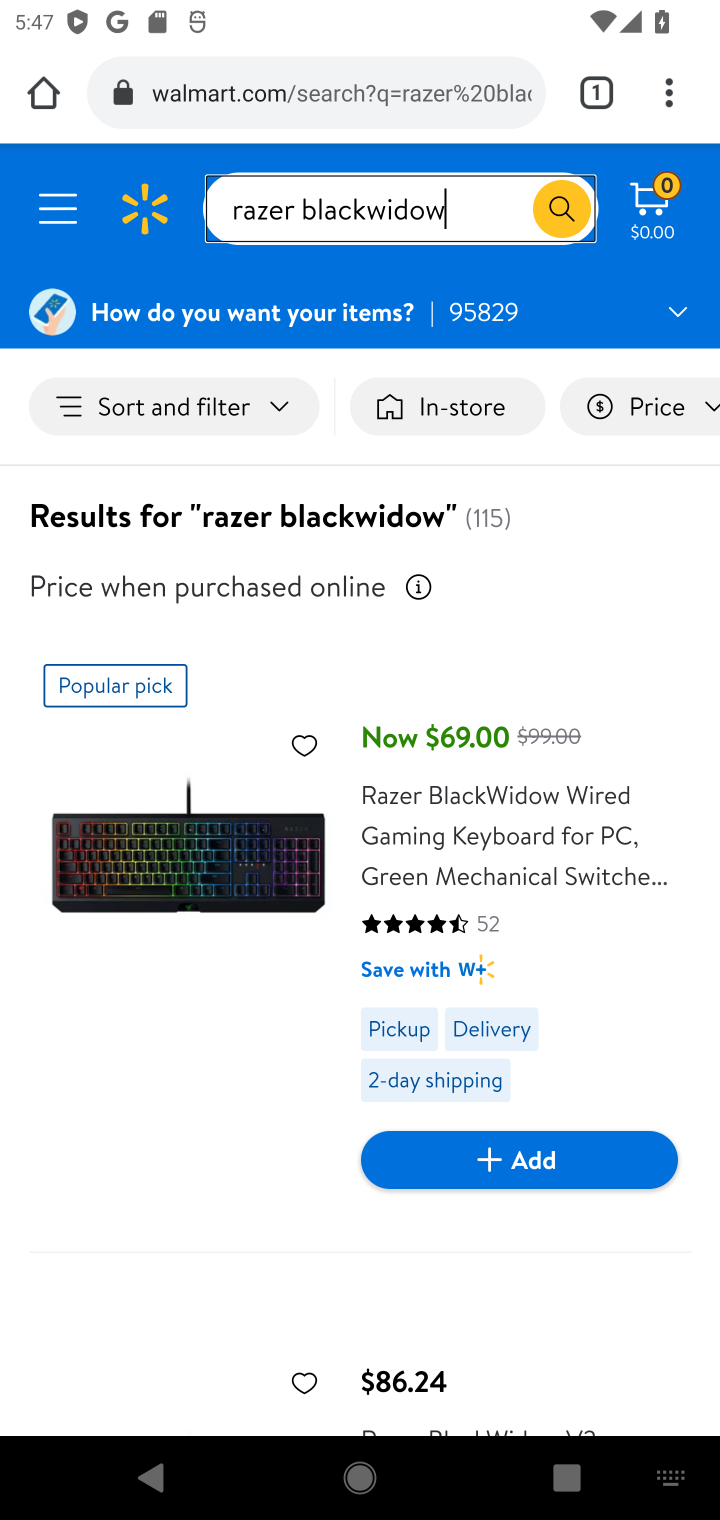
Step 26: click (586, 1146)
Your task to perform on an android device: Search for "razer blackwidow" on walmart.com, select the first entry, and add it to the cart. Image 27: 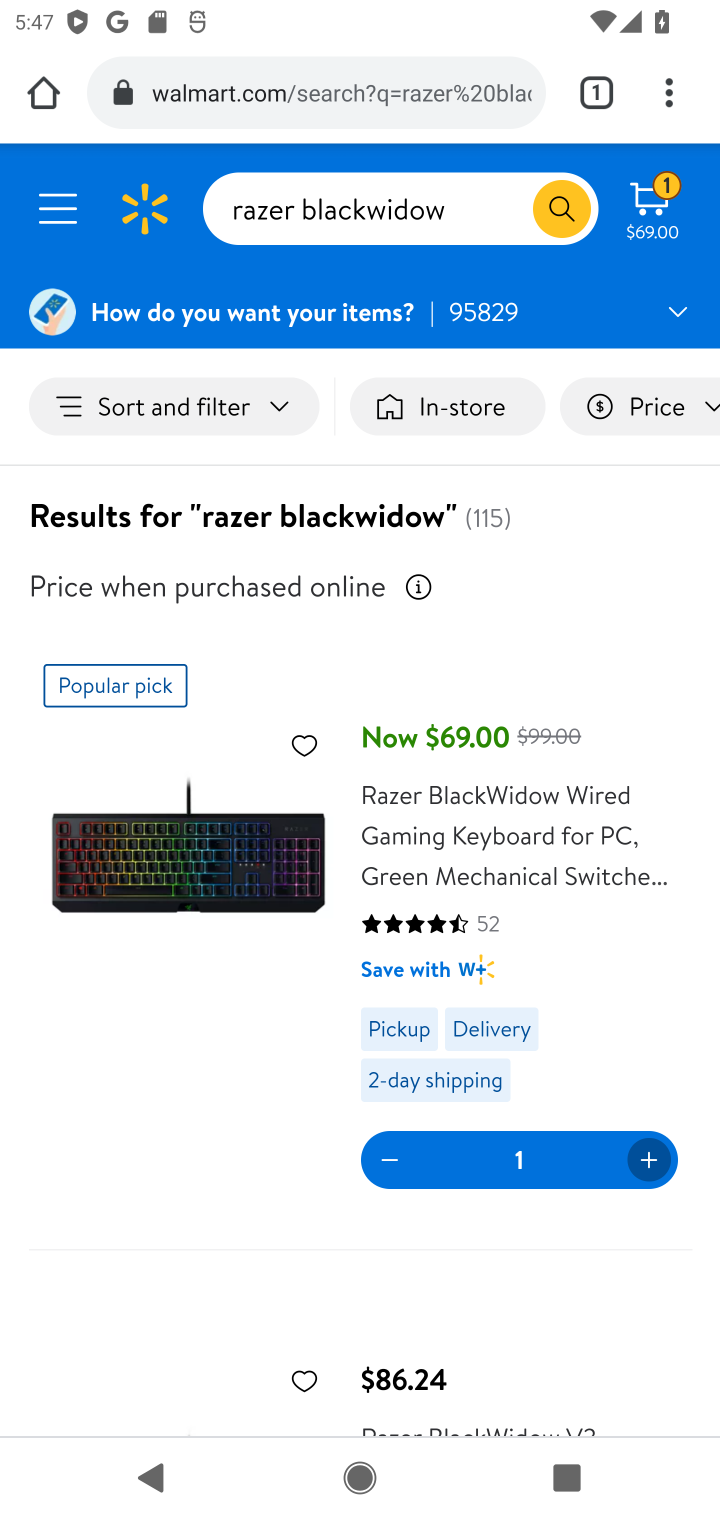
Step 27: click (680, 198)
Your task to perform on an android device: Search for "razer blackwidow" on walmart.com, select the first entry, and add it to the cart. Image 28: 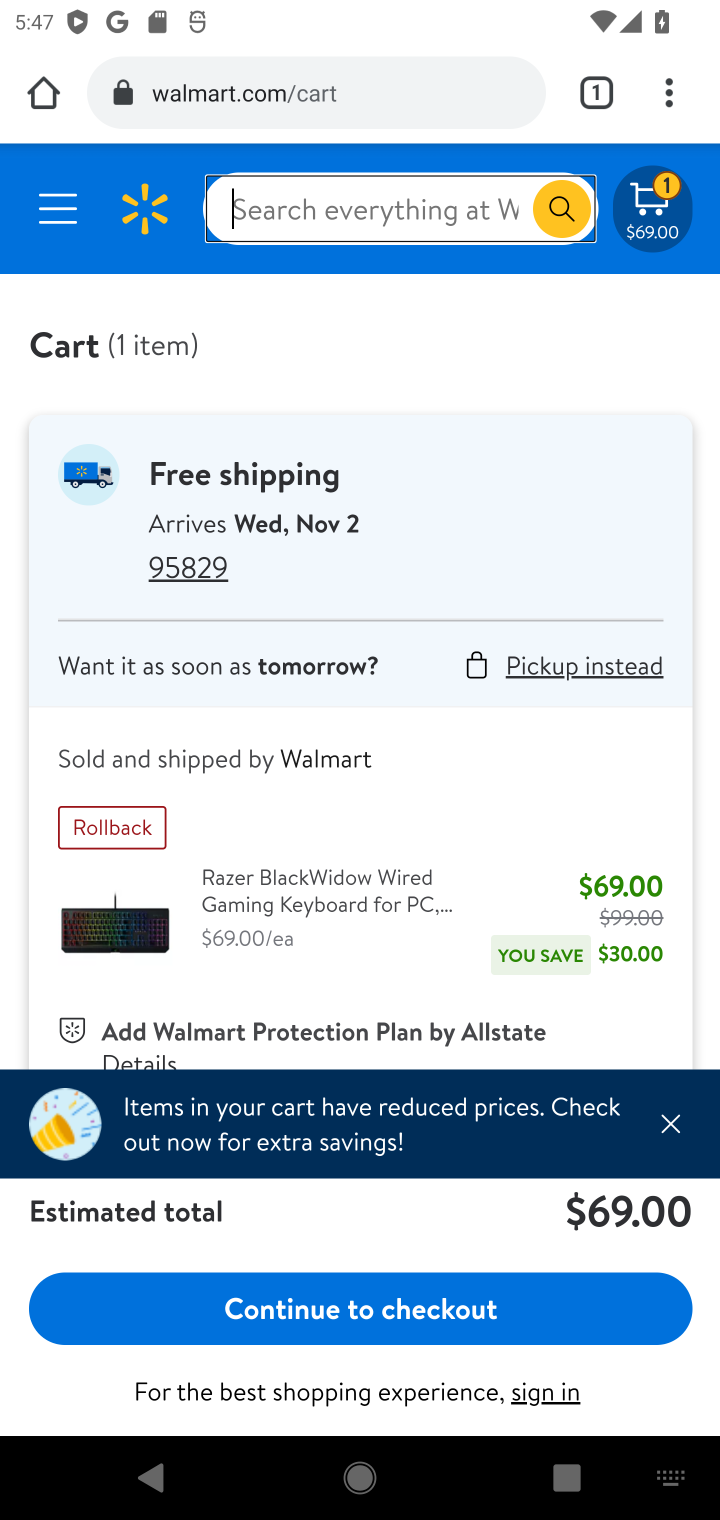
Step 28: drag from (558, 895) to (542, 381)
Your task to perform on an android device: Search for "razer blackwidow" on walmart.com, select the first entry, and add it to the cart. Image 29: 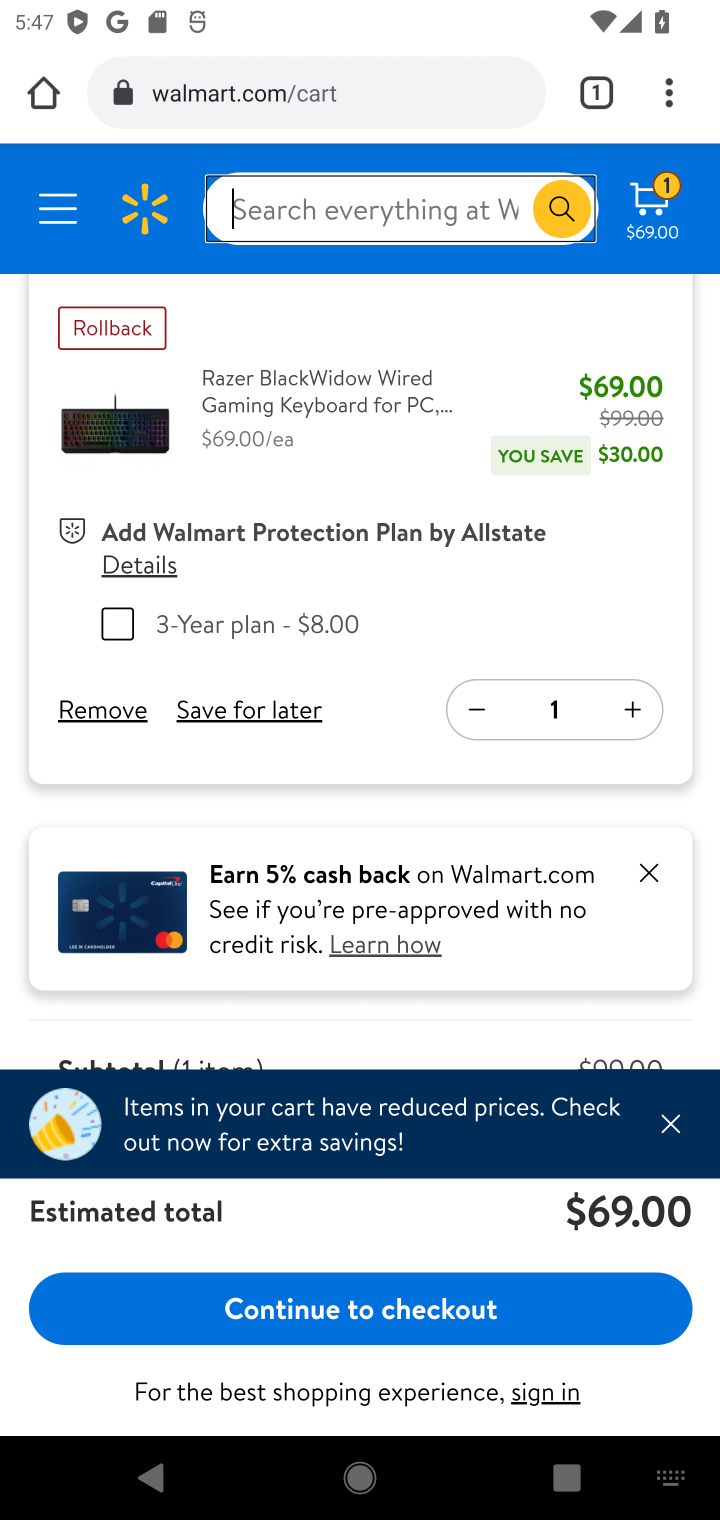
Step 29: click (398, 1318)
Your task to perform on an android device: Search for "razer blackwidow" on walmart.com, select the first entry, and add it to the cart. Image 30: 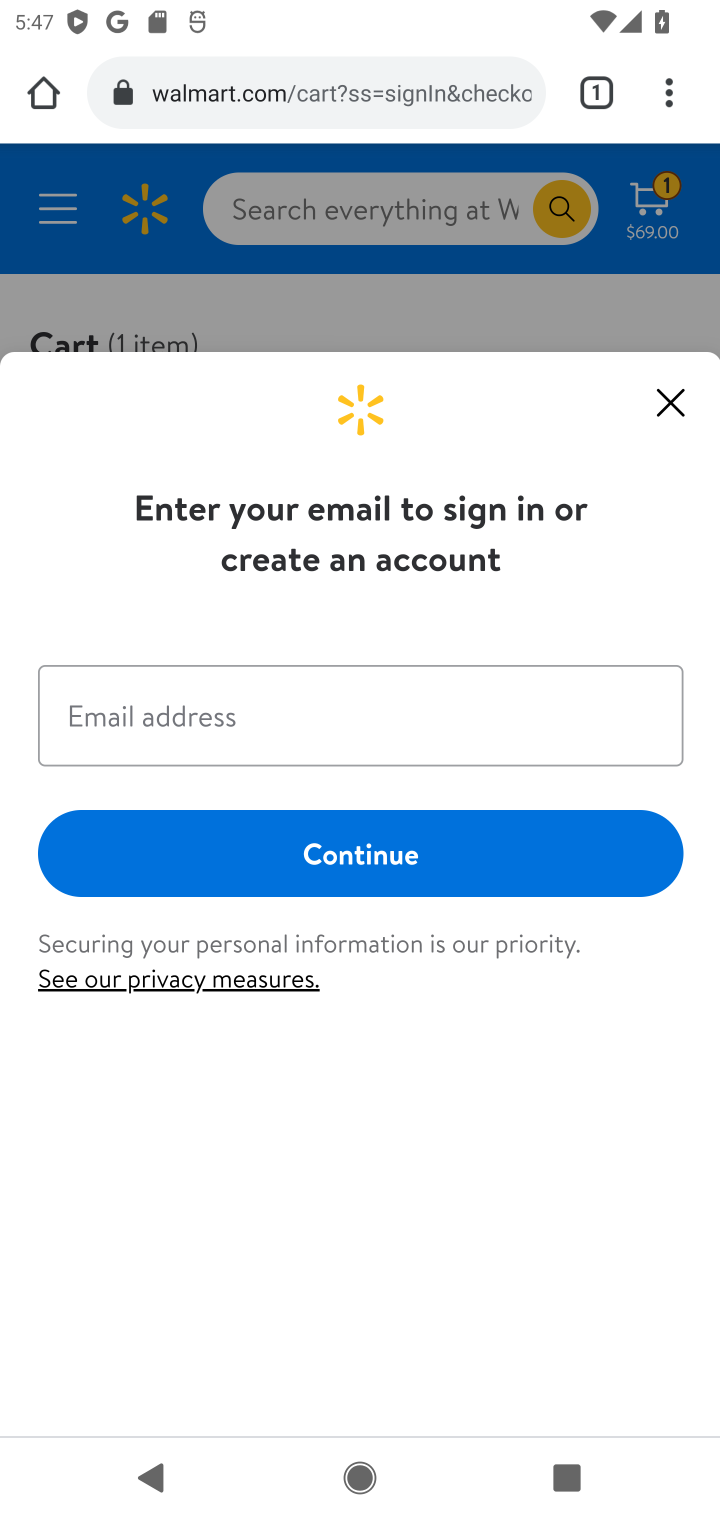
Step 30: click (674, 384)
Your task to perform on an android device: Search for "razer blackwidow" on walmart.com, select the first entry, and add it to the cart. Image 31: 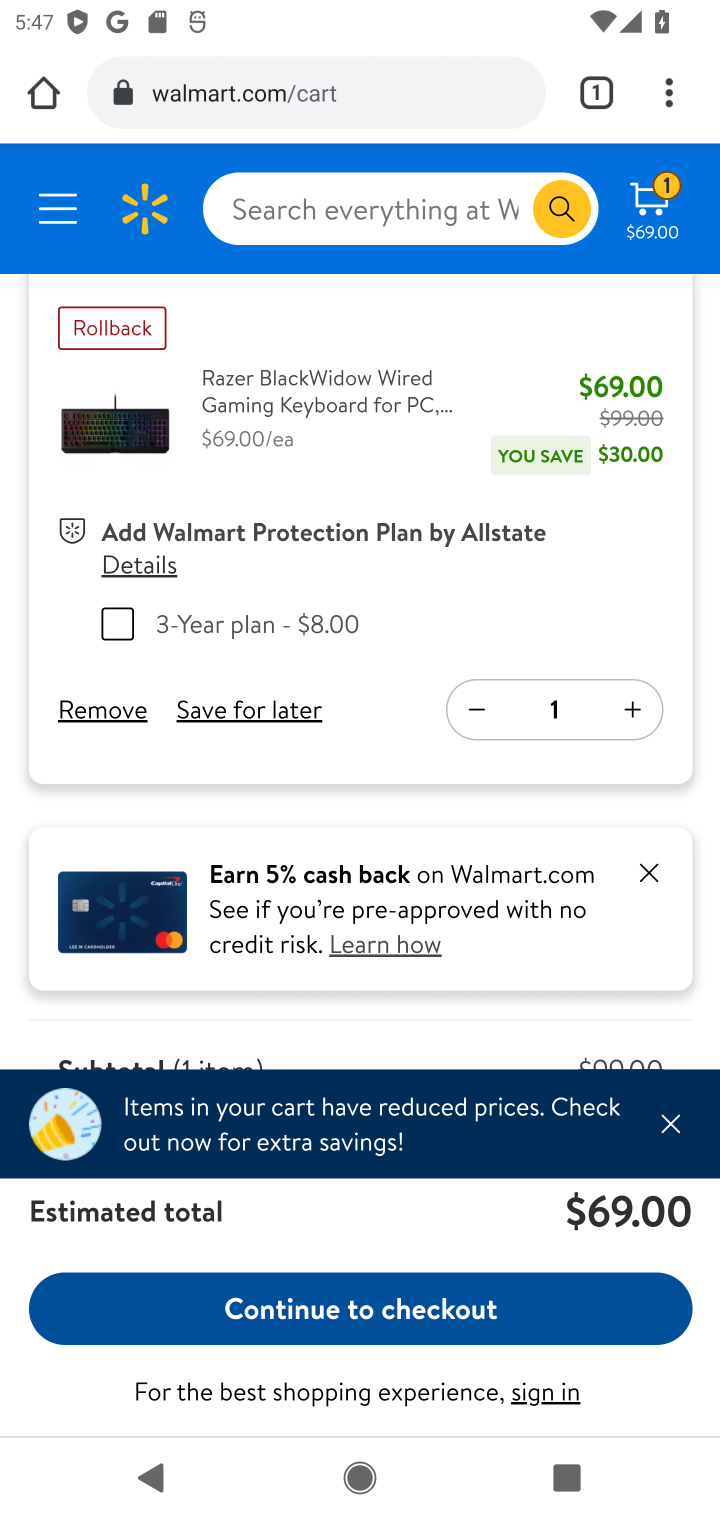
Step 31: drag from (537, 886) to (527, 735)
Your task to perform on an android device: Search for "razer blackwidow" on walmart.com, select the first entry, and add it to the cart. Image 32: 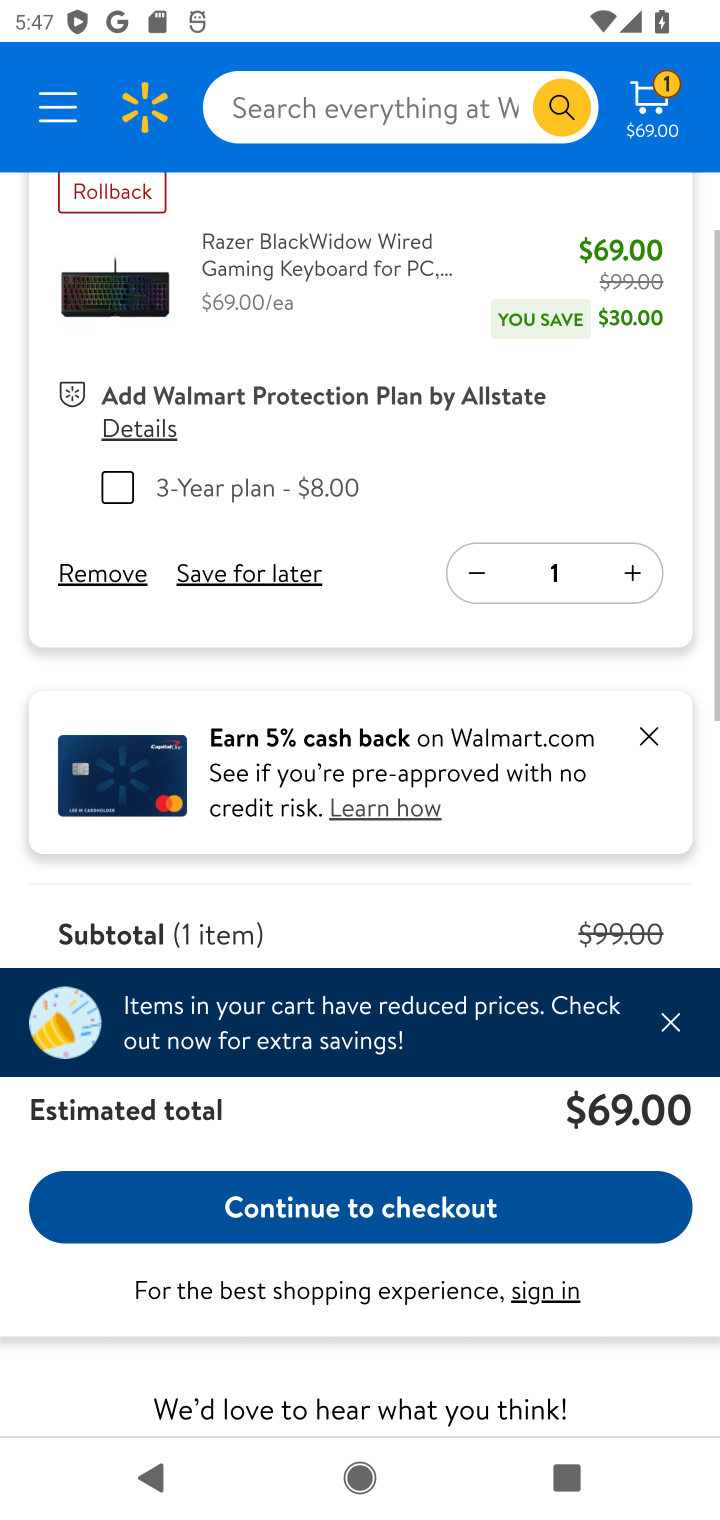
Step 32: click (397, 1309)
Your task to perform on an android device: Search for "razer blackwidow" on walmart.com, select the first entry, and add it to the cart. Image 33: 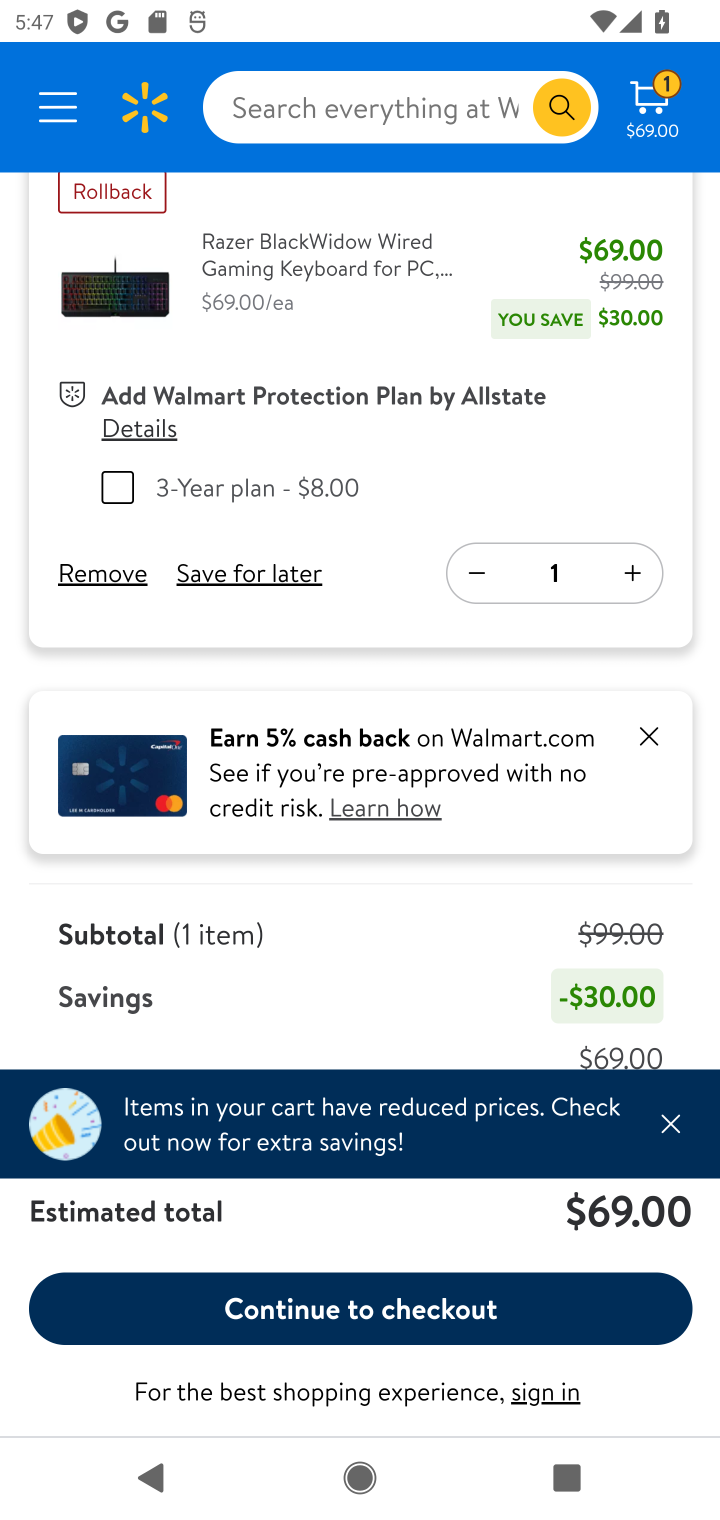
Step 33: click (346, 1271)
Your task to perform on an android device: Search for "razer blackwidow" on walmart.com, select the first entry, and add it to the cart. Image 34: 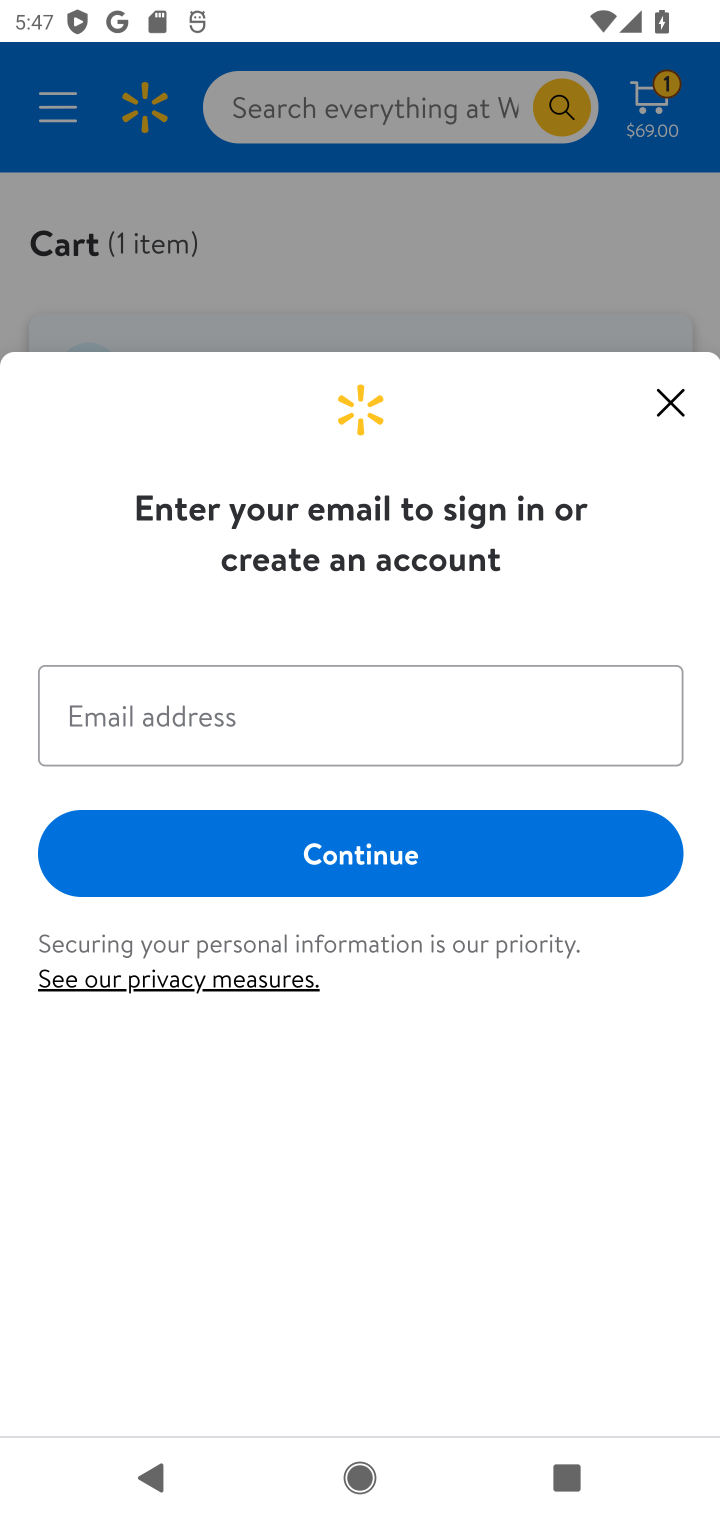
Step 34: click (683, 391)
Your task to perform on an android device: Search for "razer blackwidow" on walmart.com, select the first entry, and add it to the cart. Image 35: 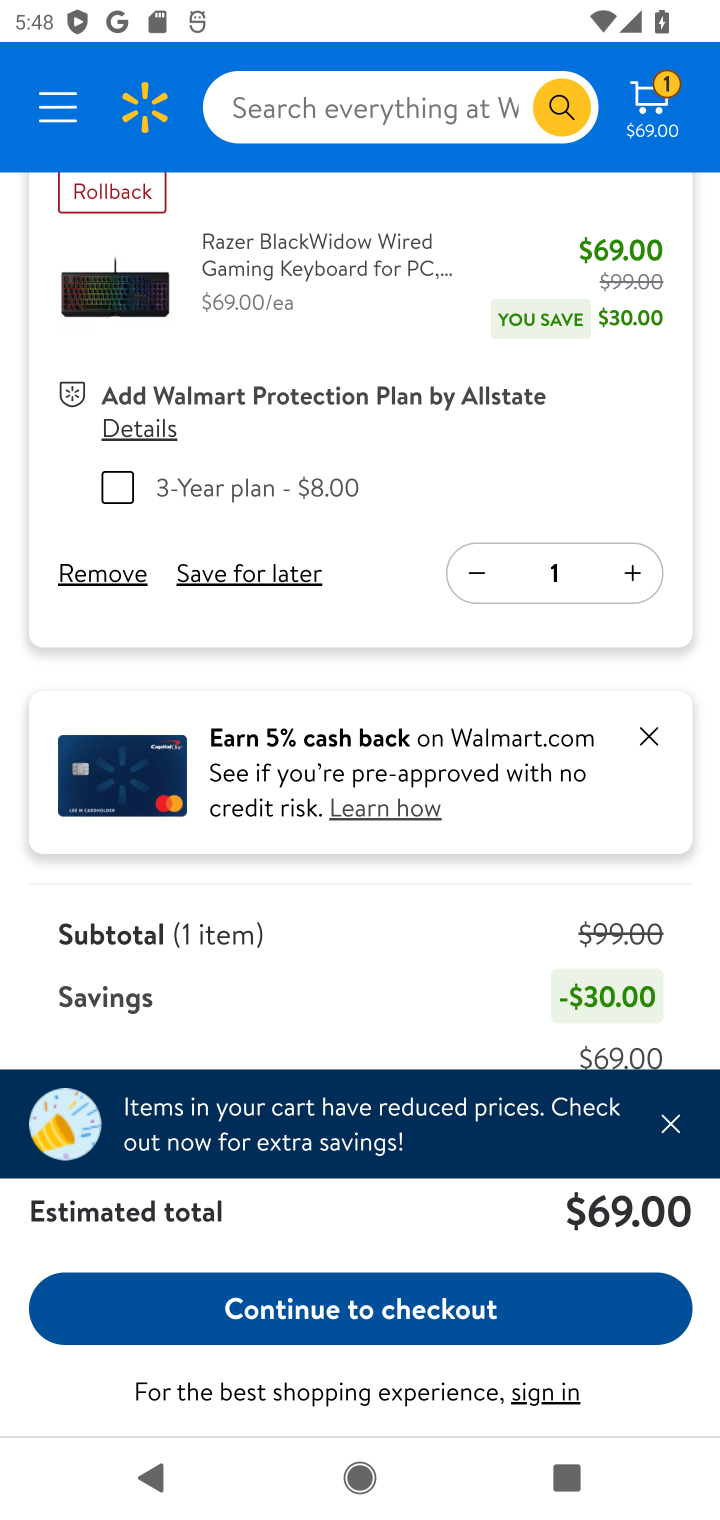
Step 35: task complete